Your task to perform on an android device: Show the shopping cart on bestbuy. Add alienware aurora to the cart on bestbuy, then select checkout. Image 0: 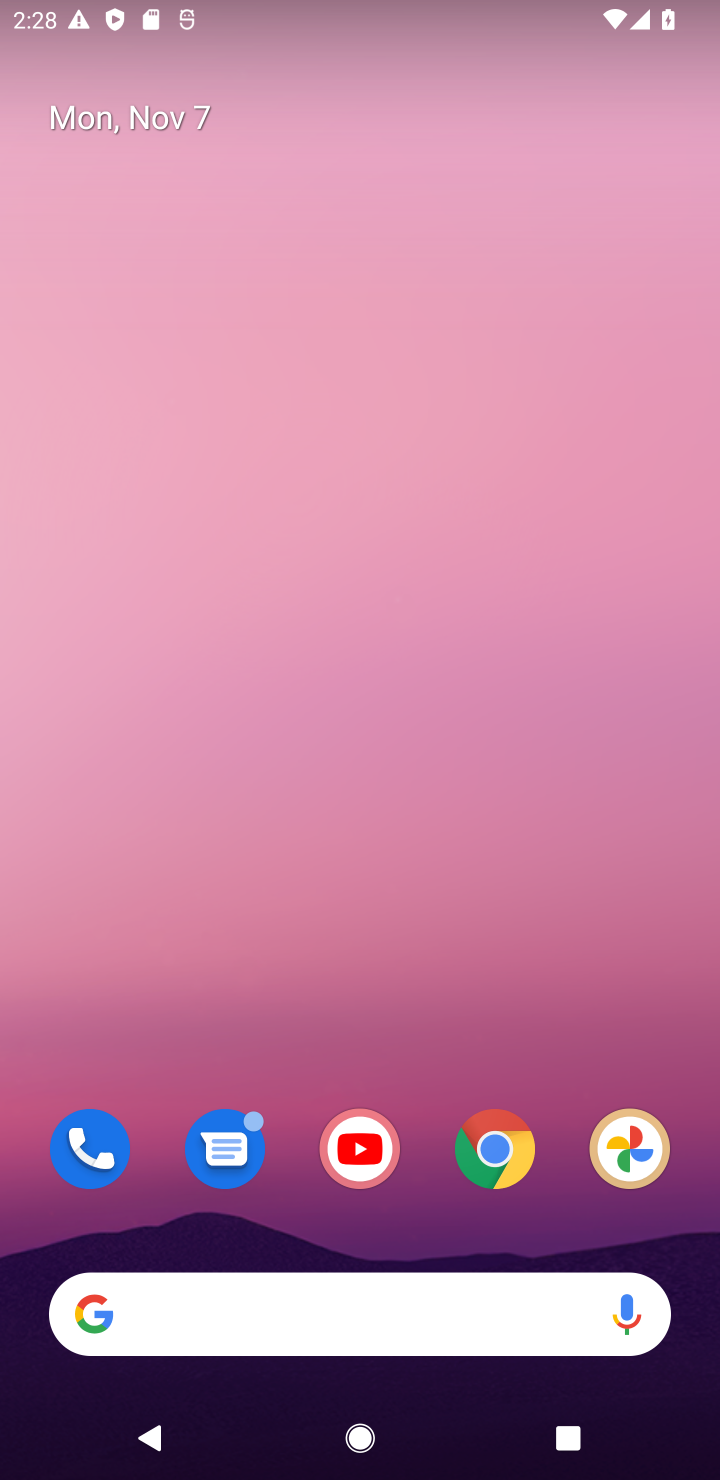
Step 0: click (506, 1148)
Your task to perform on an android device: Show the shopping cart on bestbuy. Add alienware aurora to the cart on bestbuy, then select checkout. Image 1: 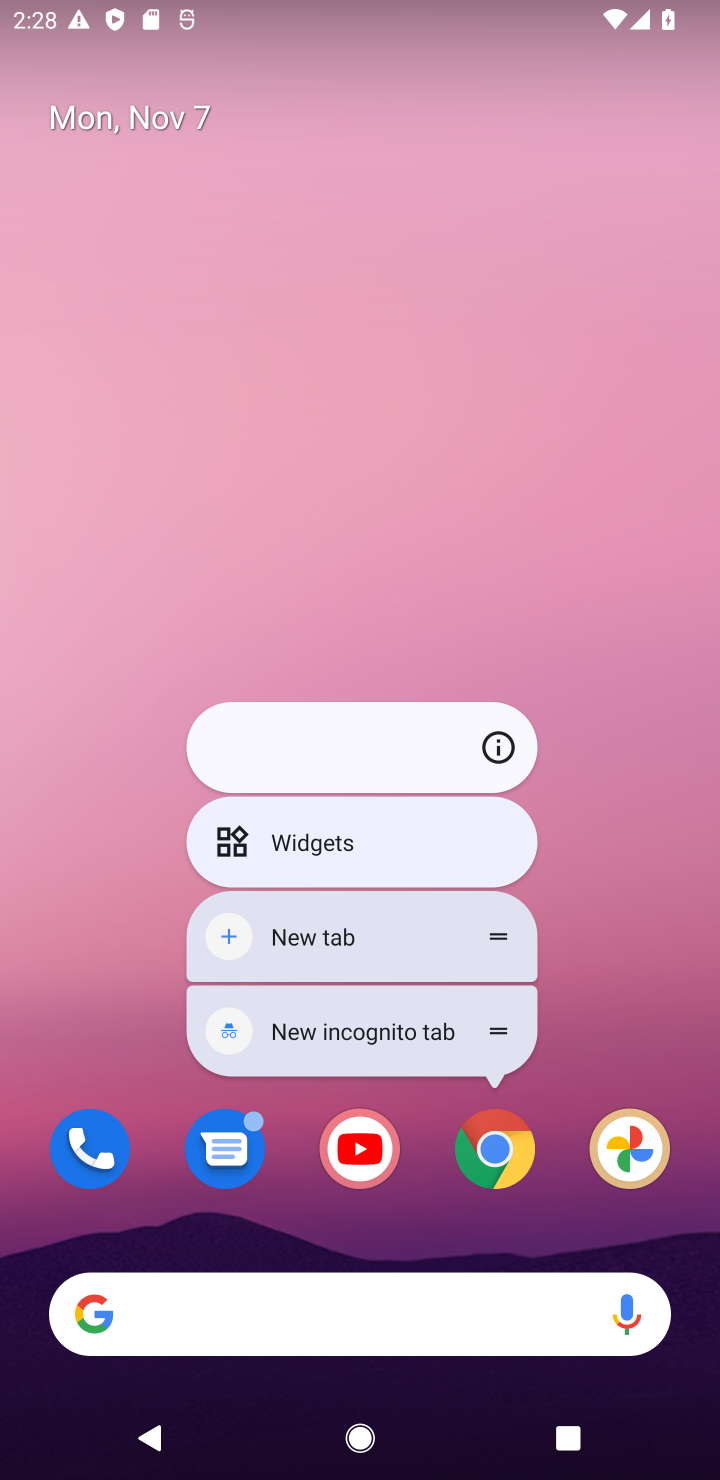
Step 1: click (506, 1148)
Your task to perform on an android device: Show the shopping cart on bestbuy. Add alienware aurora to the cart on bestbuy, then select checkout. Image 2: 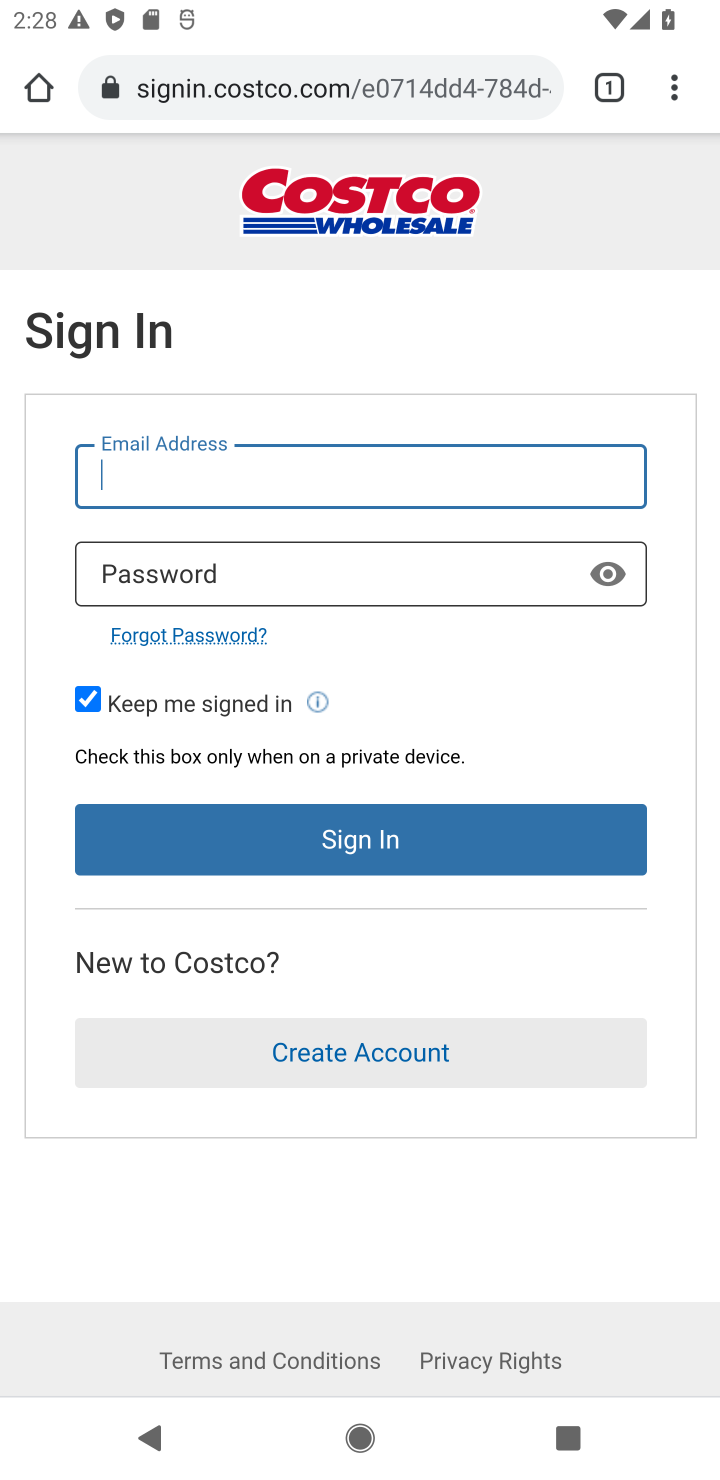
Step 2: click (319, 93)
Your task to perform on an android device: Show the shopping cart on bestbuy. Add alienware aurora to the cart on bestbuy, then select checkout. Image 3: 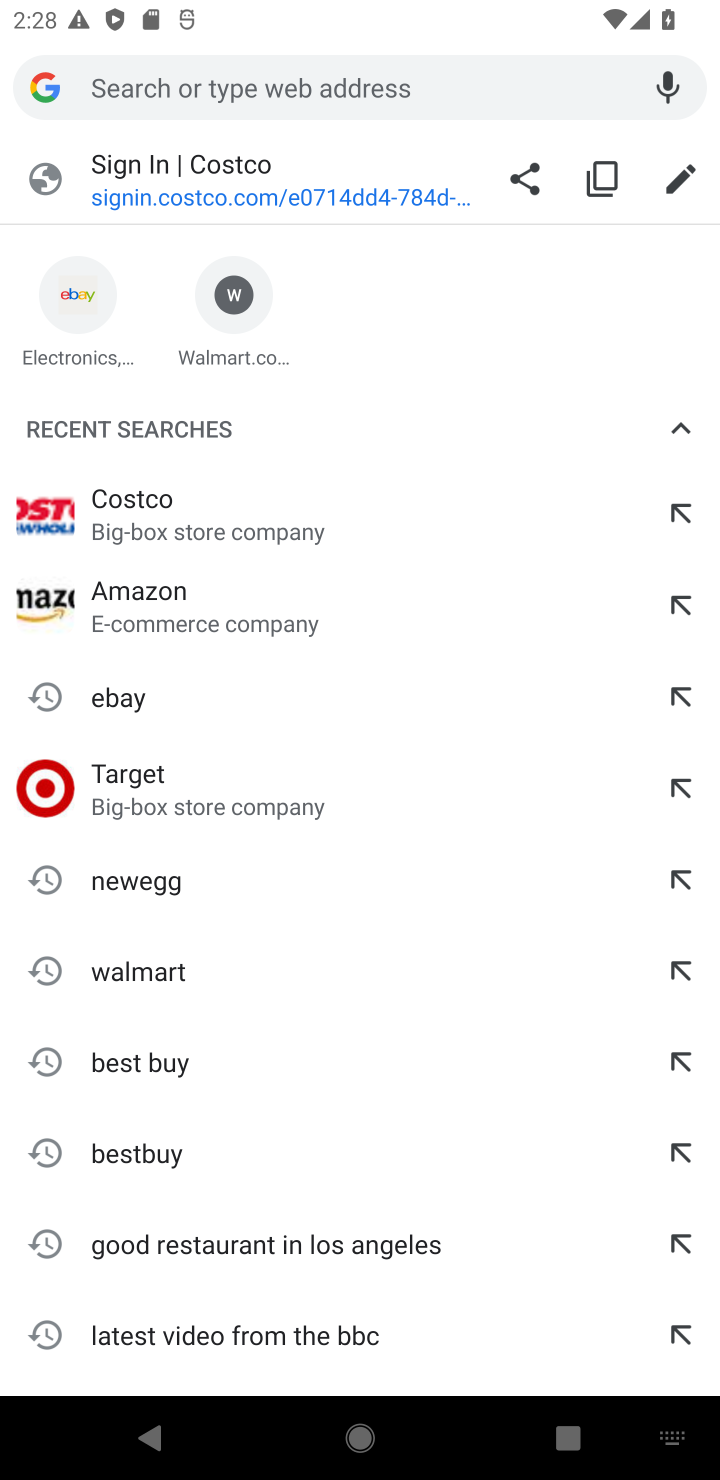
Step 3: type "bestbuy"
Your task to perform on an android device: Show the shopping cart on bestbuy. Add alienware aurora to the cart on bestbuy, then select checkout. Image 4: 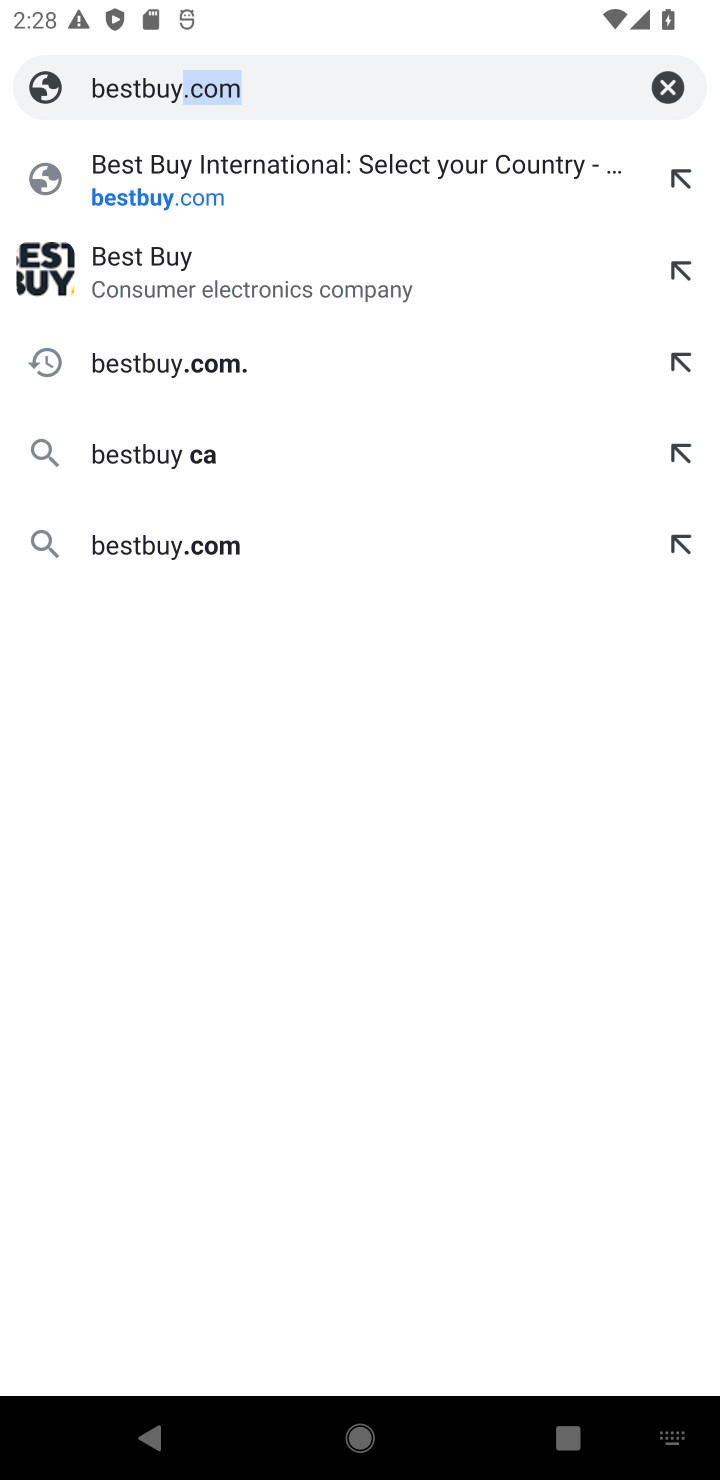
Step 4: click (150, 261)
Your task to perform on an android device: Show the shopping cart on bestbuy. Add alienware aurora to the cart on bestbuy, then select checkout. Image 5: 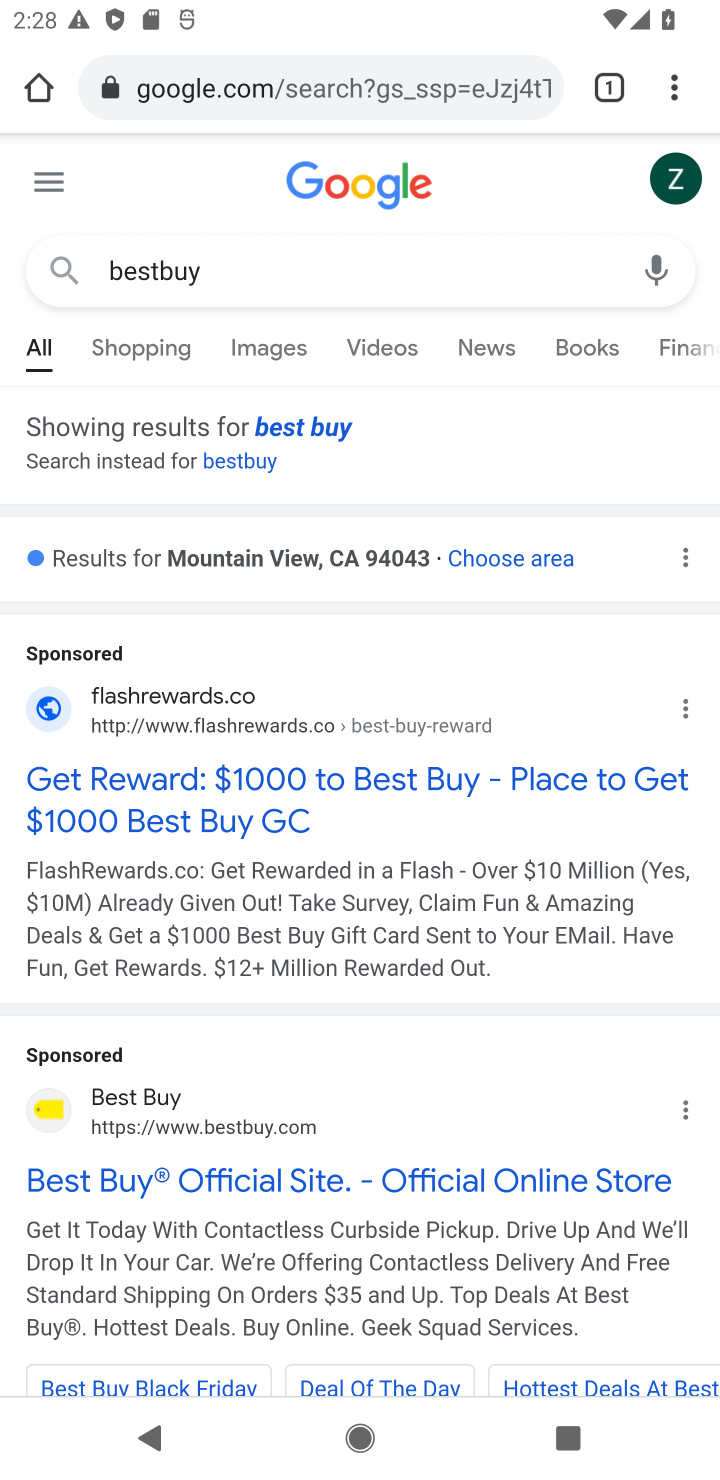
Step 5: drag from (171, 1034) to (234, 39)
Your task to perform on an android device: Show the shopping cart on bestbuy. Add alienware aurora to the cart on bestbuy, then select checkout. Image 6: 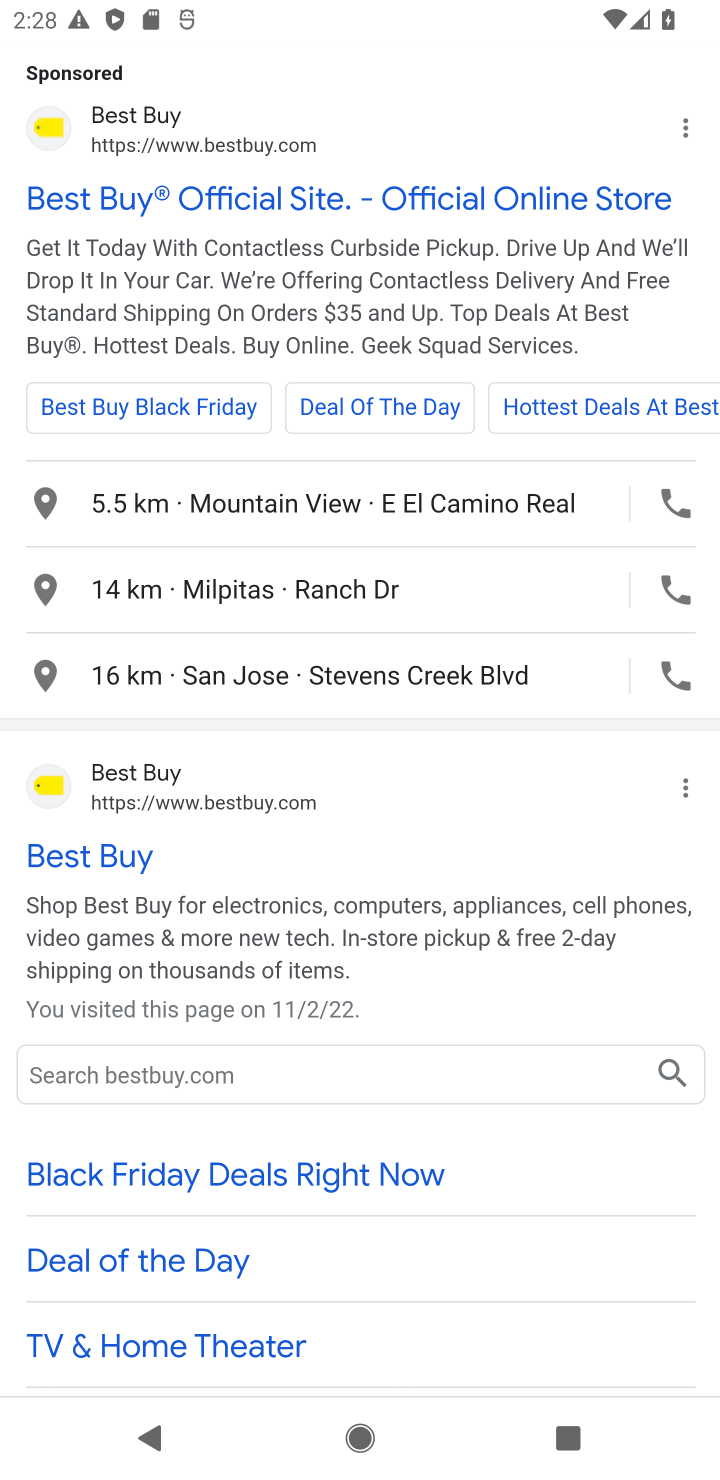
Step 6: click (66, 855)
Your task to perform on an android device: Show the shopping cart on bestbuy. Add alienware aurora to the cart on bestbuy, then select checkout. Image 7: 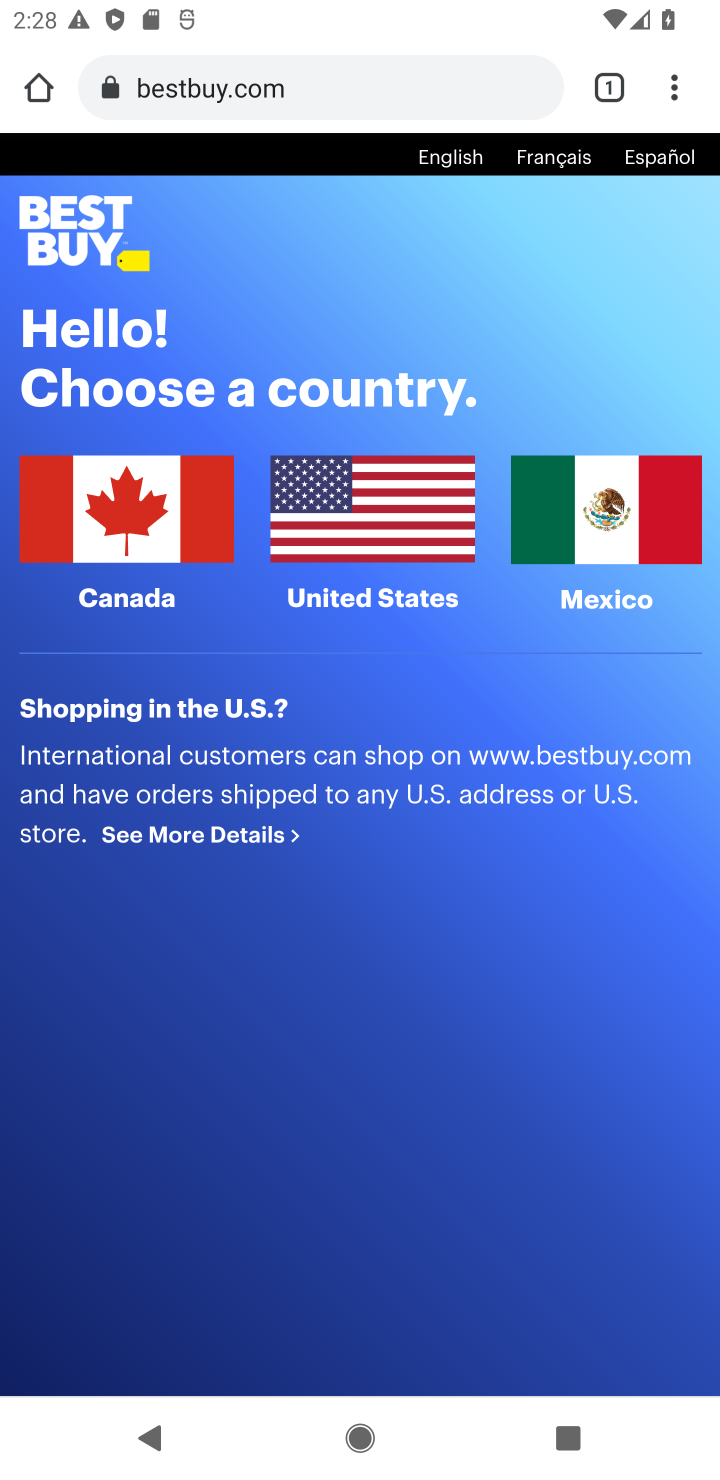
Step 7: click (188, 487)
Your task to perform on an android device: Show the shopping cart on bestbuy. Add alienware aurora to the cart on bestbuy, then select checkout. Image 8: 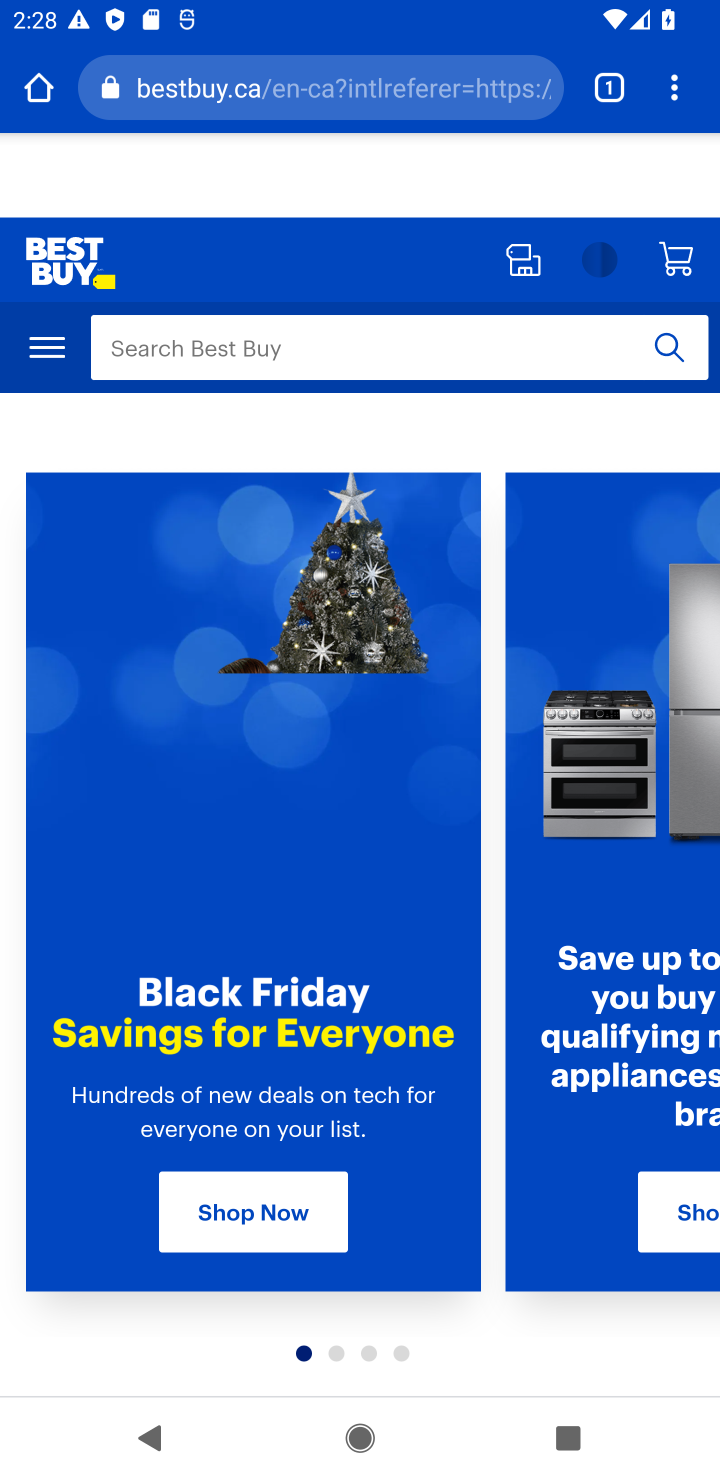
Step 8: click (222, 351)
Your task to perform on an android device: Show the shopping cart on bestbuy. Add alienware aurora to the cart on bestbuy, then select checkout. Image 9: 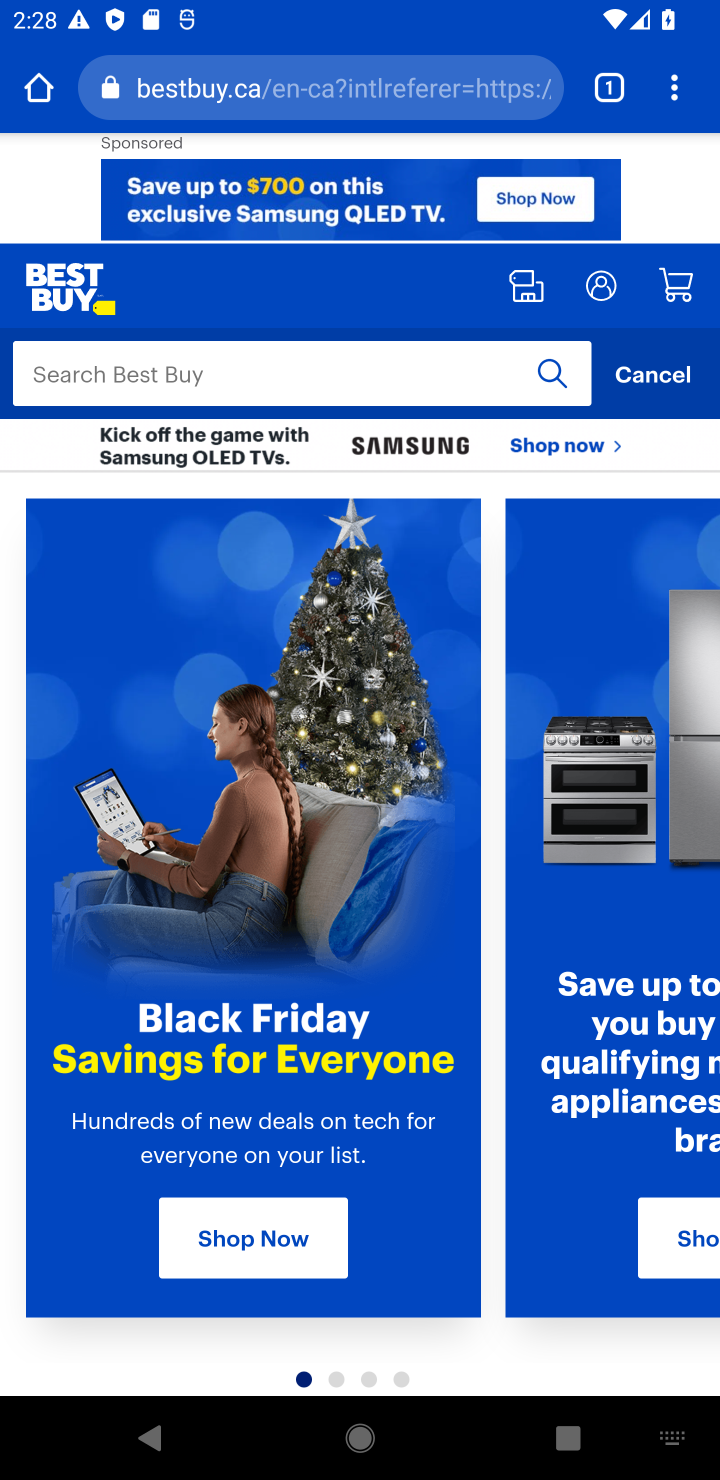
Step 9: type "alienware aurora"
Your task to perform on an android device: Show the shopping cart on bestbuy. Add alienware aurora to the cart on bestbuy, then select checkout. Image 10: 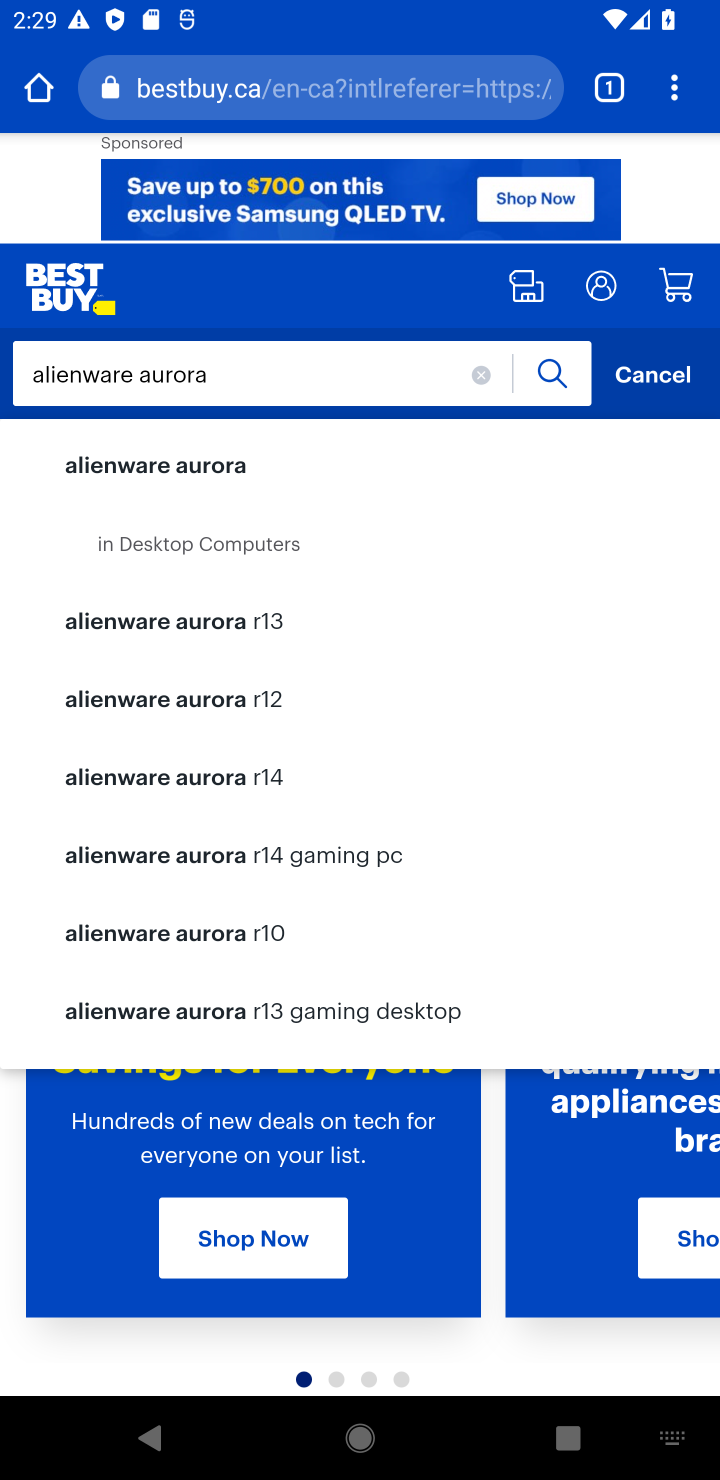
Step 10: click (131, 451)
Your task to perform on an android device: Show the shopping cart on bestbuy. Add alienware aurora to the cart on bestbuy, then select checkout. Image 11: 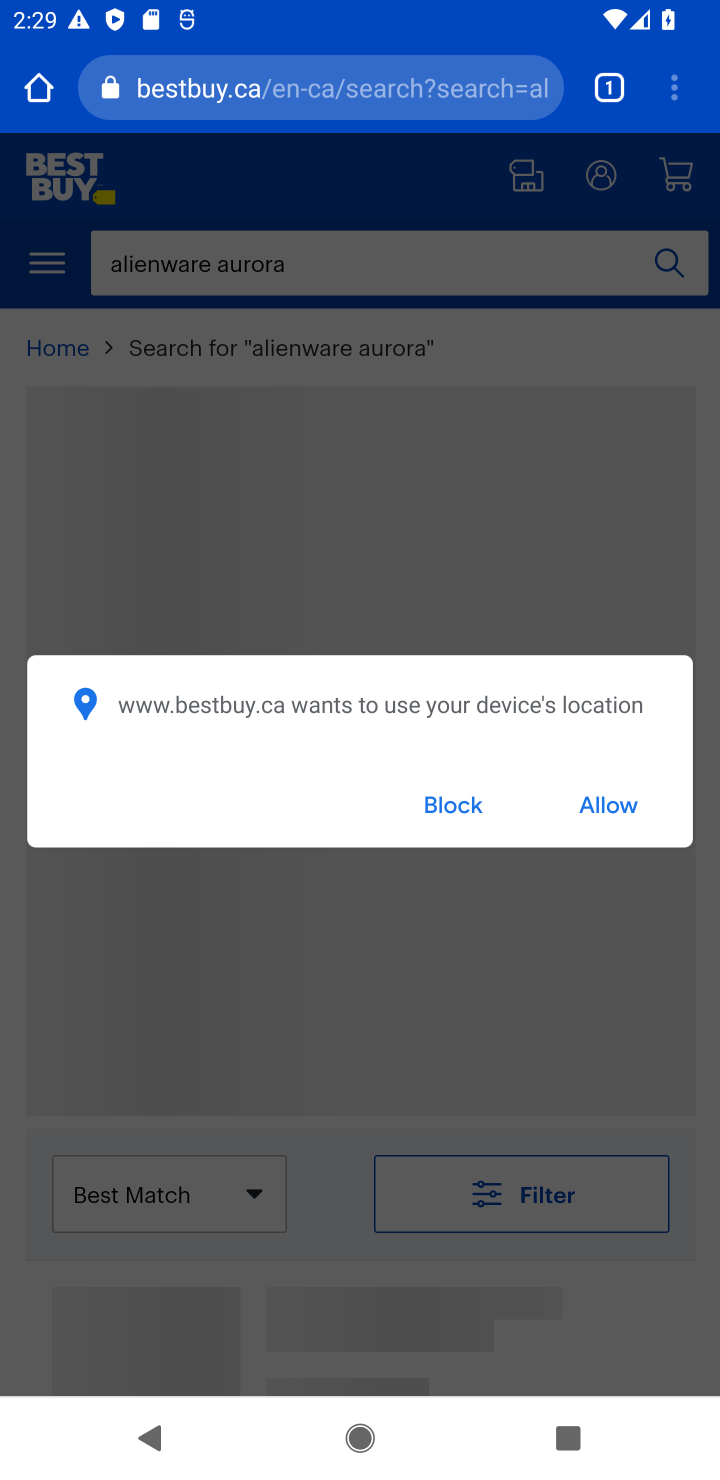
Step 11: click (601, 801)
Your task to perform on an android device: Show the shopping cart on bestbuy. Add alienware aurora to the cart on bestbuy, then select checkout. Image 12: 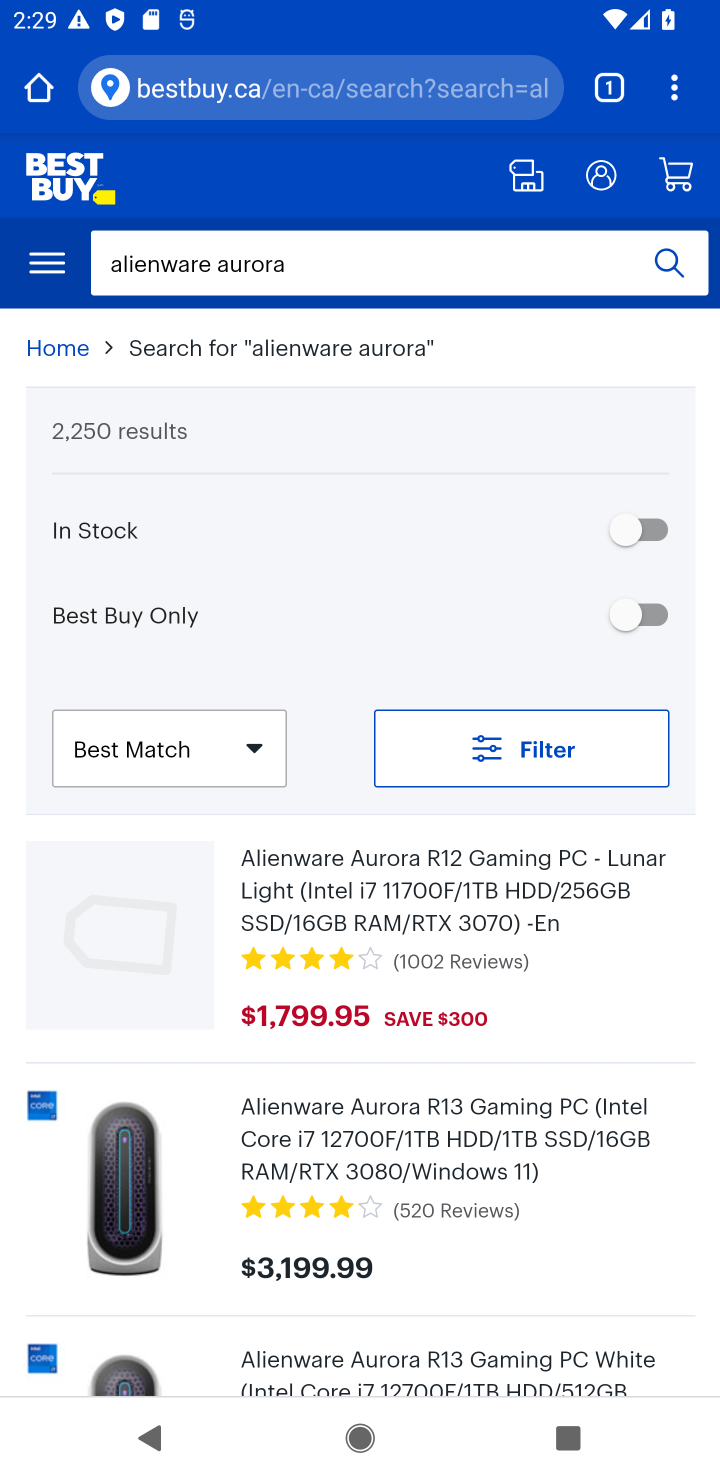
Step 12: drag from (491, 1199) to (451, 416)
Your task to perform on an android device: Show the shopping cart on bestbuy. Add alienware aurora to the cart on bestbuy, then select checkout. Image 13: 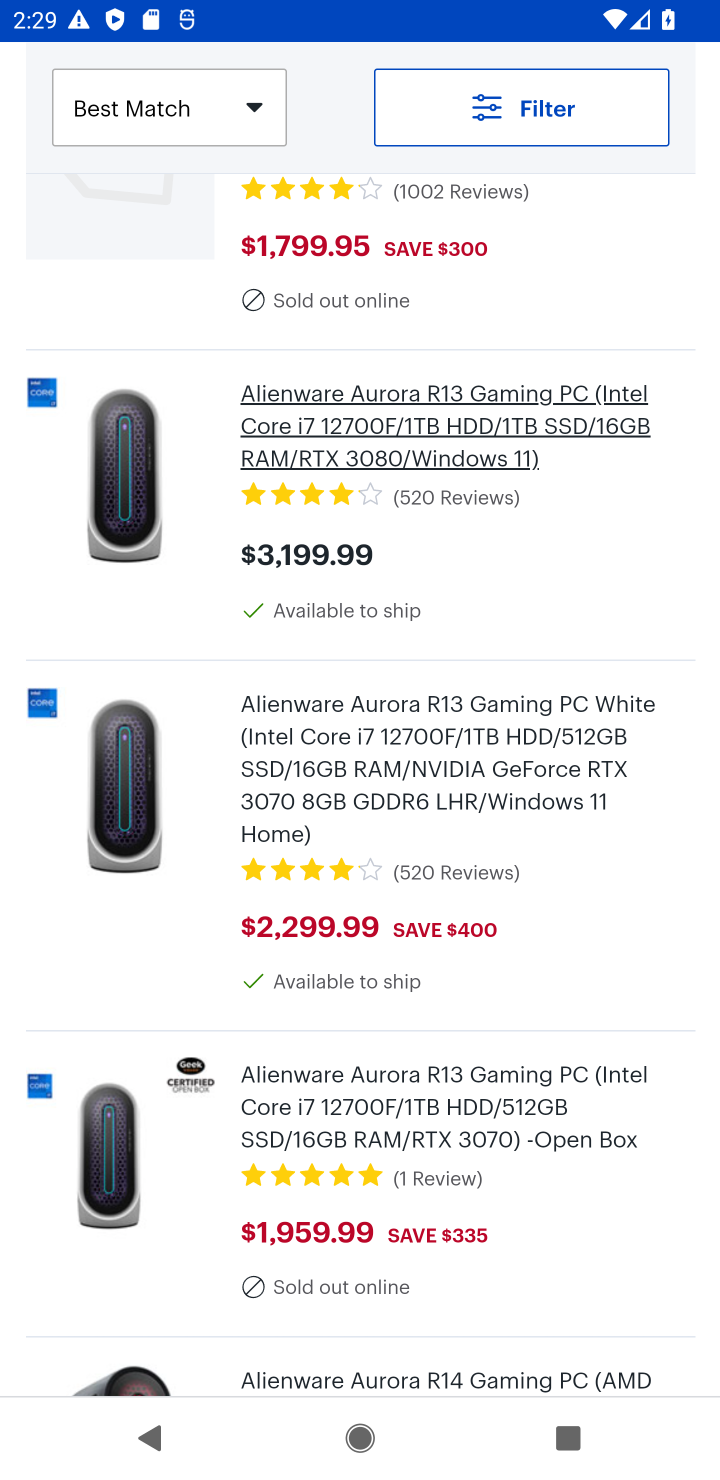
Step 13: click (381, 592)
Your task to perform on an android device: Show the shopping cart on bestbuy. Add alienware aurora to the cart on bestbuy, then select checkout. Image 14: 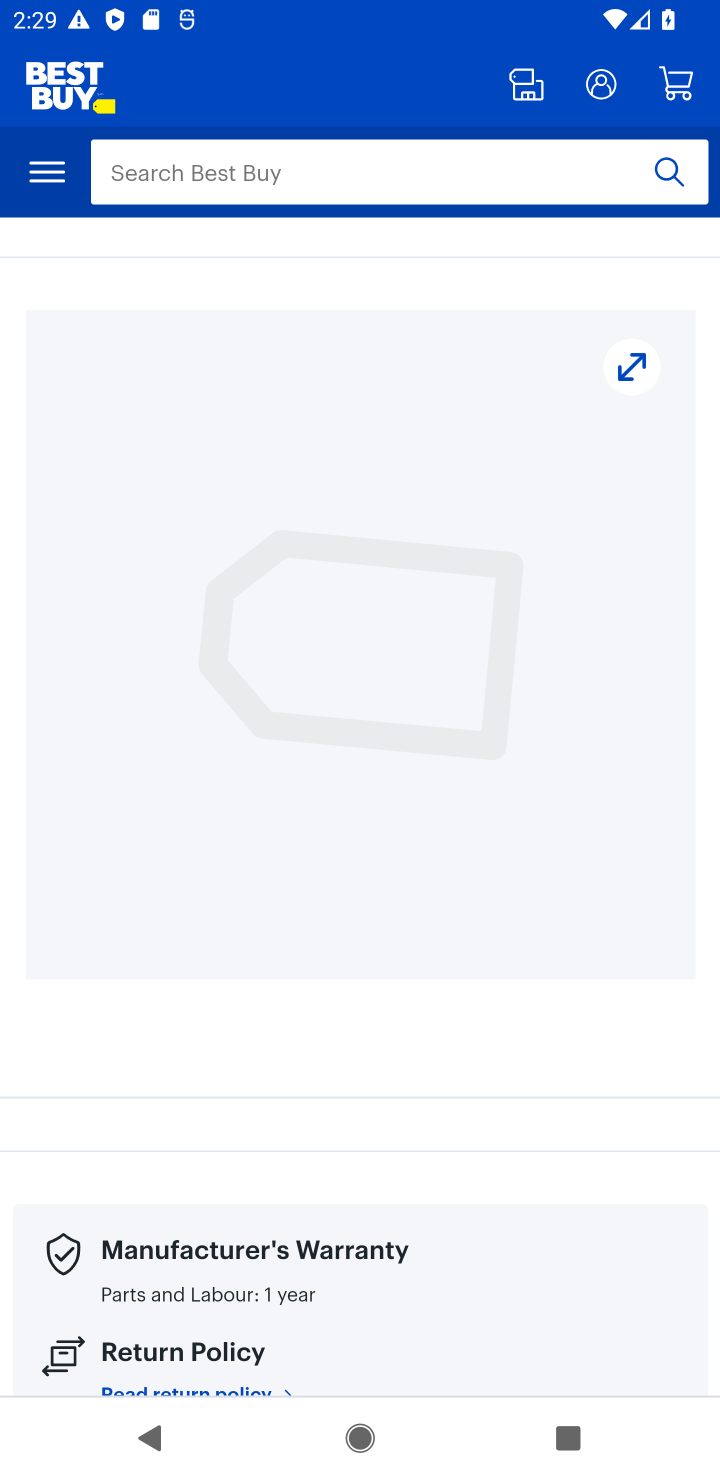
Step 14: press back button
Your task to perform on an android device: Show the shopping cart on bestbuy. Add alienware aurora to the cart on bestbuy, then select checkout. Image 15: 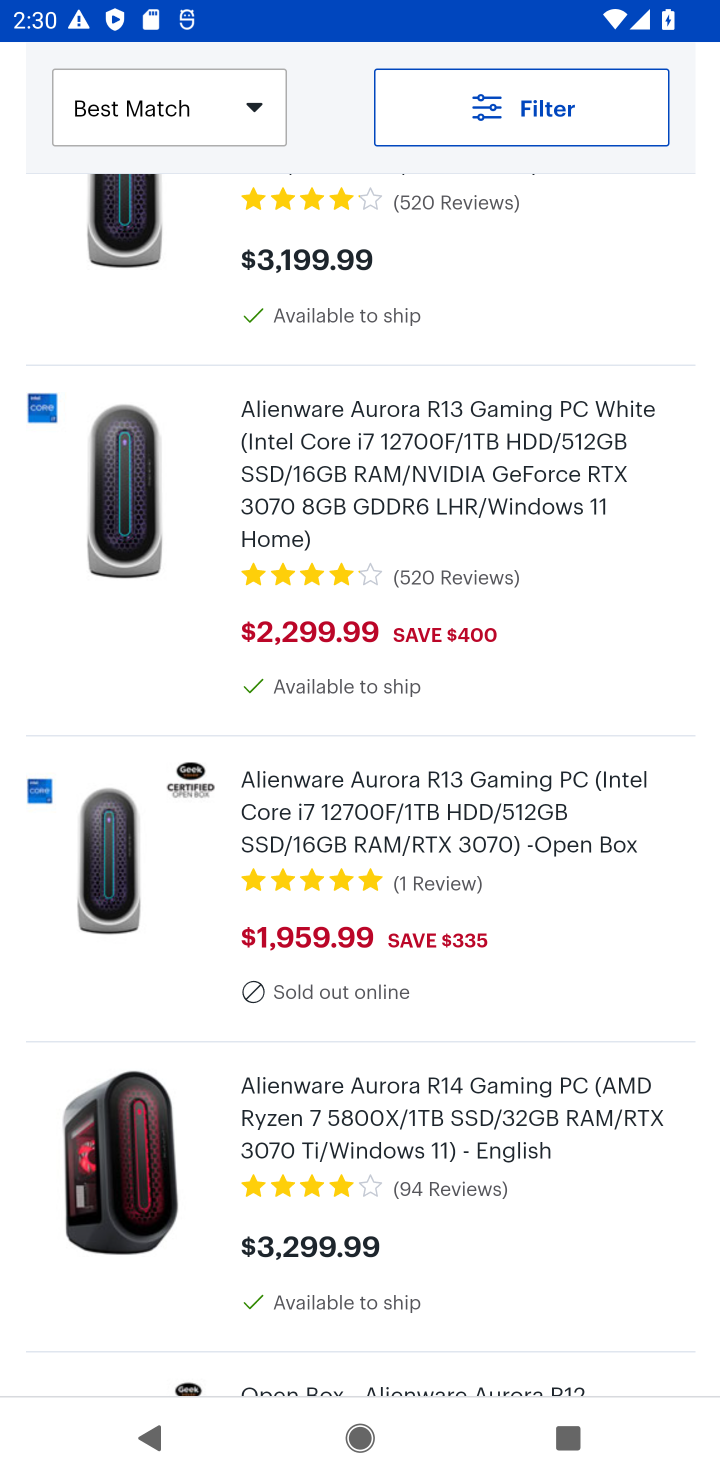
Step 15: click (391, 778)
Your task to perform on an android device: Show the shopping cart on bestbuy. Add alienware aurora to the cart on bestbuy, then select checkout. Image 16: 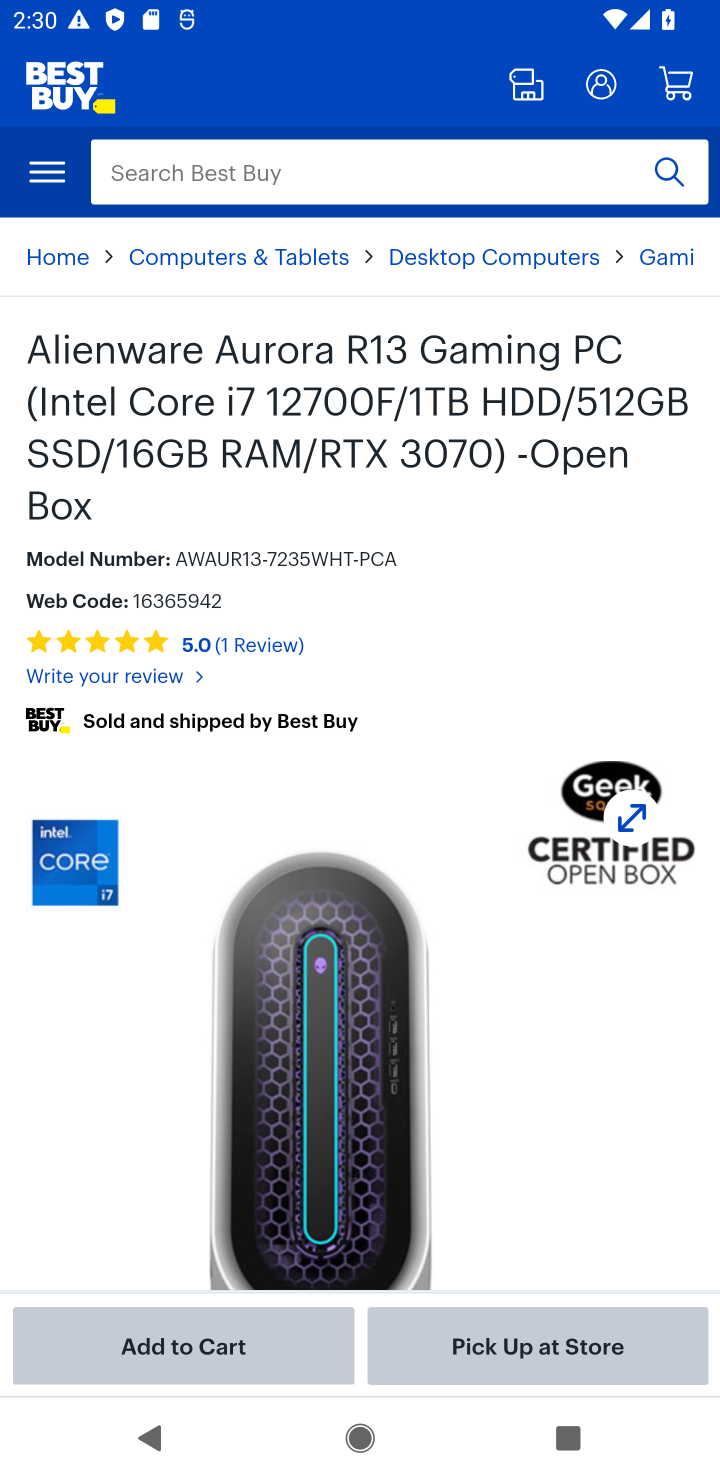
Step 16: drag from (444, 1105) to (437, 239)
Your task to perform on an android device: Show the shopping cart on bestbuy. Add alienware aurora to the cart on bestbuy, then select checkout. Image 17: 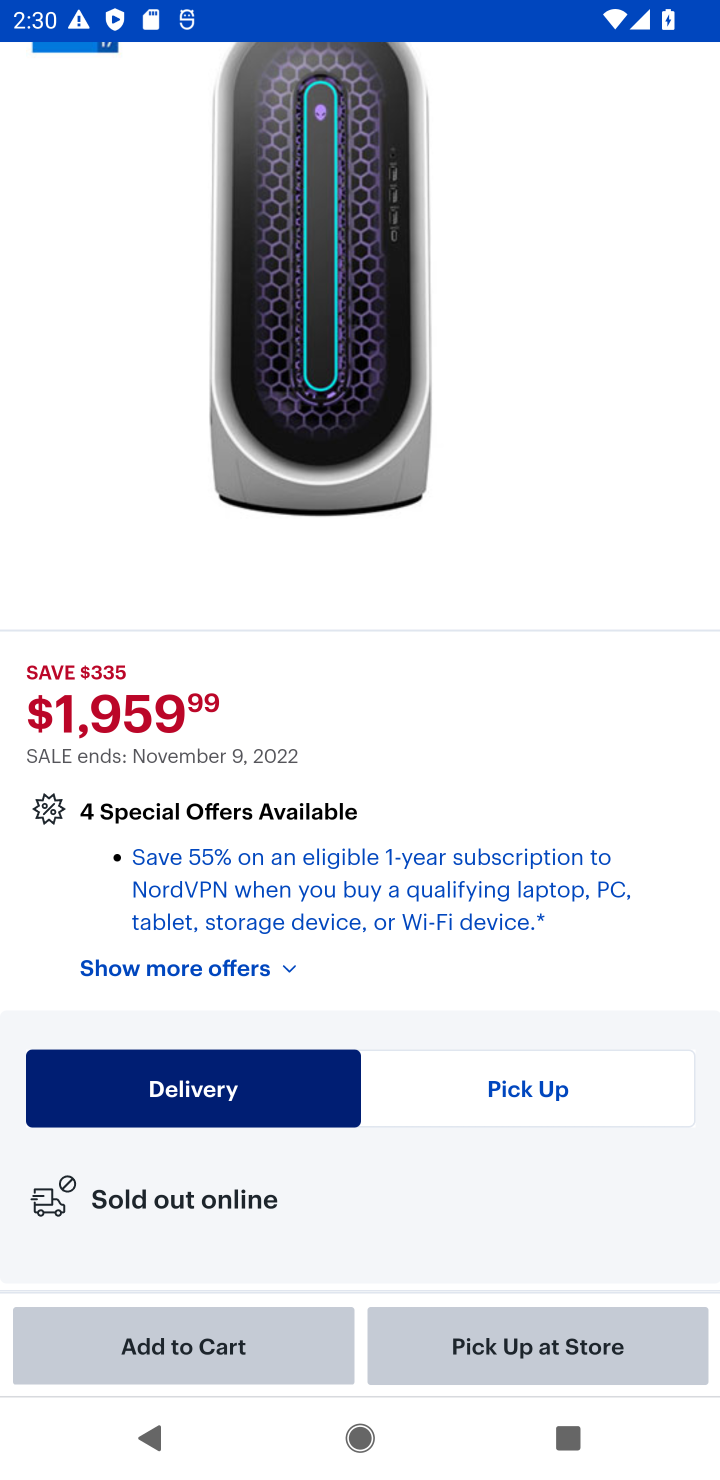
Step 17: drag from (379, 582) to (364, 272)
Your task to perform on an android device: Show the shopping cart on bestbuy. Add alienware aurora to the cart on bestbuy, then select checkout. Image 18: 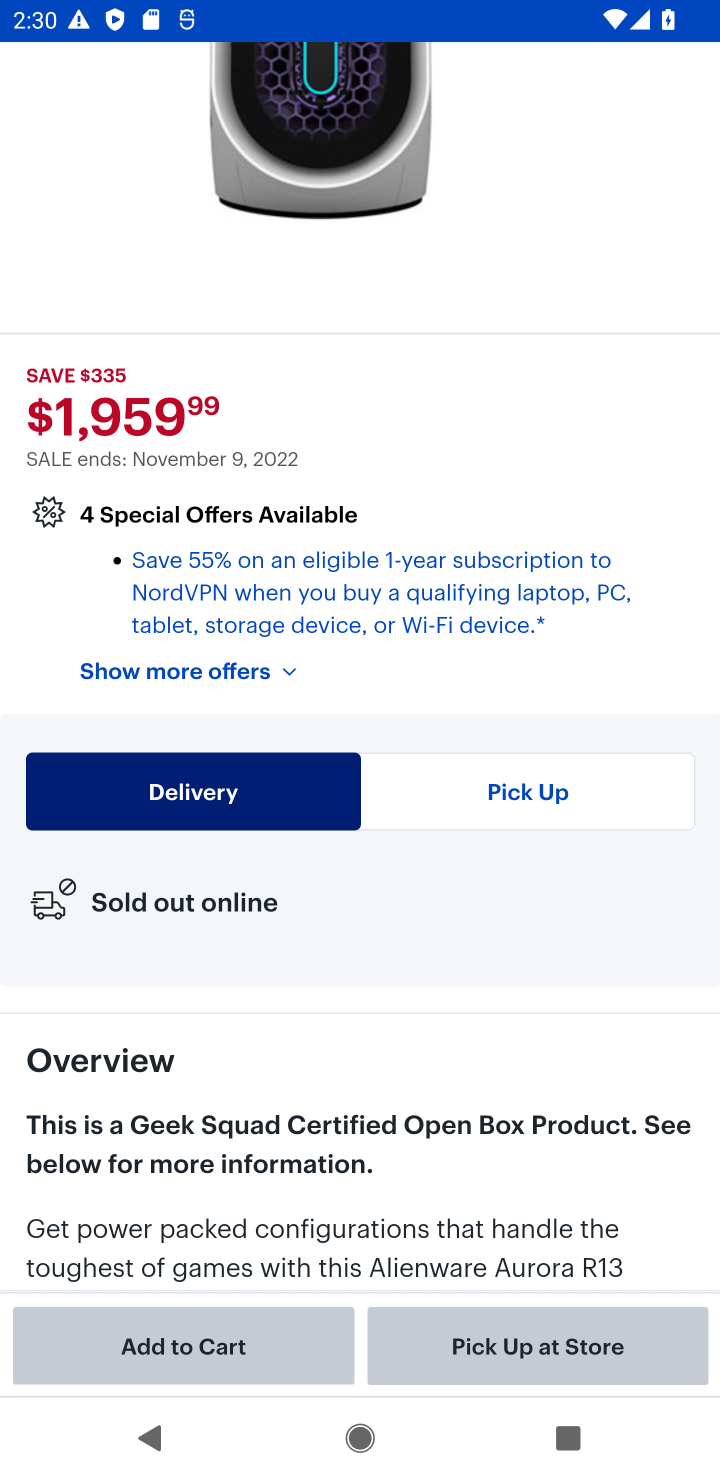
Step 18: drag from (287, 1111) to (315, 167)
Your task to perform on an android device: Show the shopping cart on bestbuy. Add alienware aurora to the cart on bestbuy, then select checkout. Image 19: 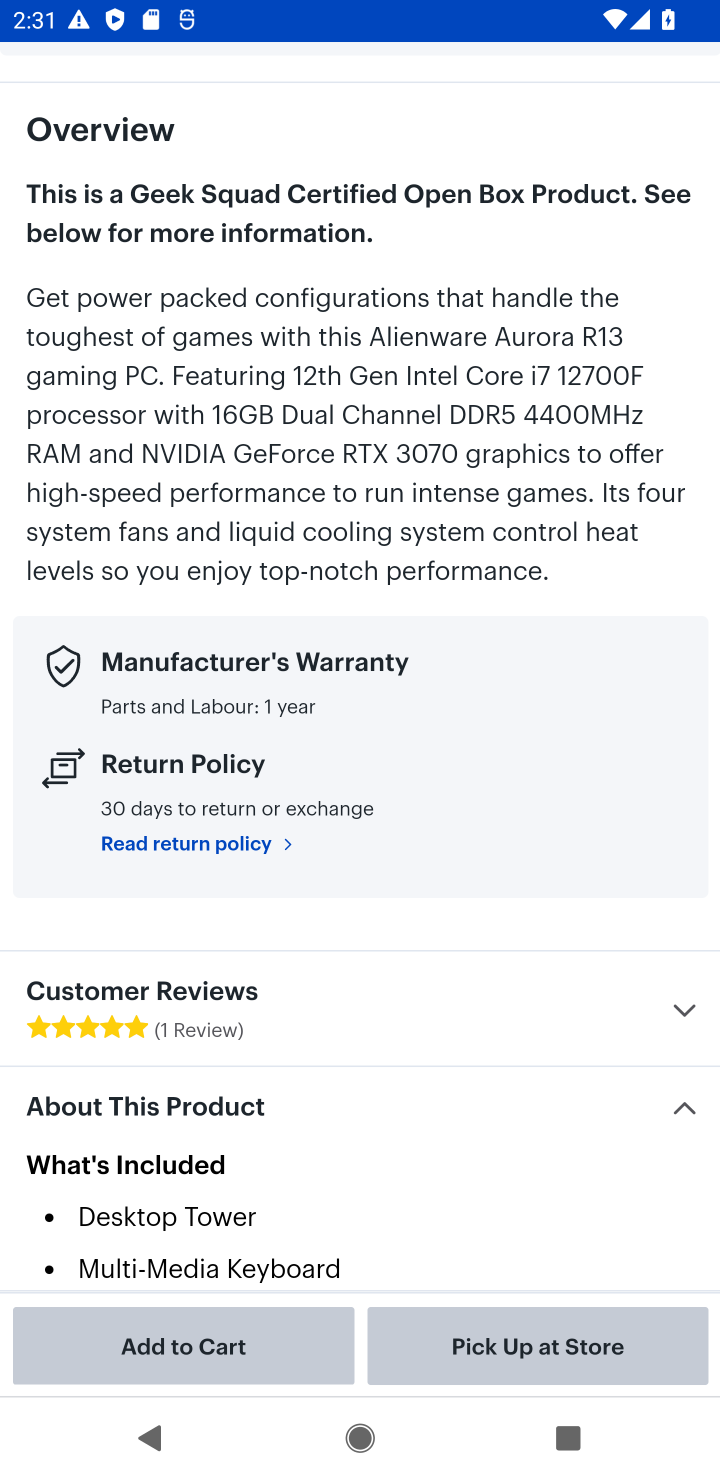
Step 19: click (203, 1343)
Your task to perform on an android device: Show the shopping cart on bestbuy. Add alienware aurora to the cart on bestbuy, then select checkout. Image 20: 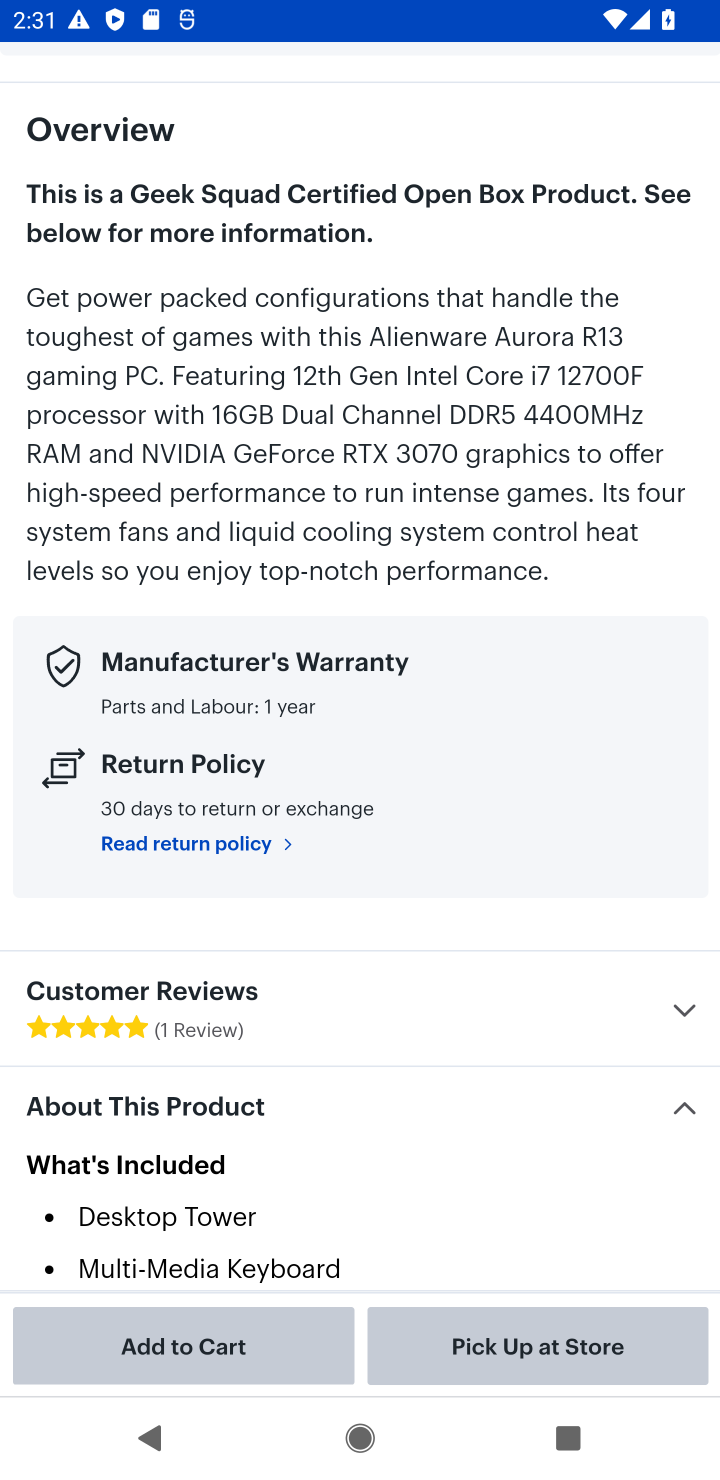
Step 20: click (205, 1341)
Your task to perform on an android device: Show the shopping cart on bestbuy. Add alienware aurora to the cart on bestbuy, then select checkout. Image 21: 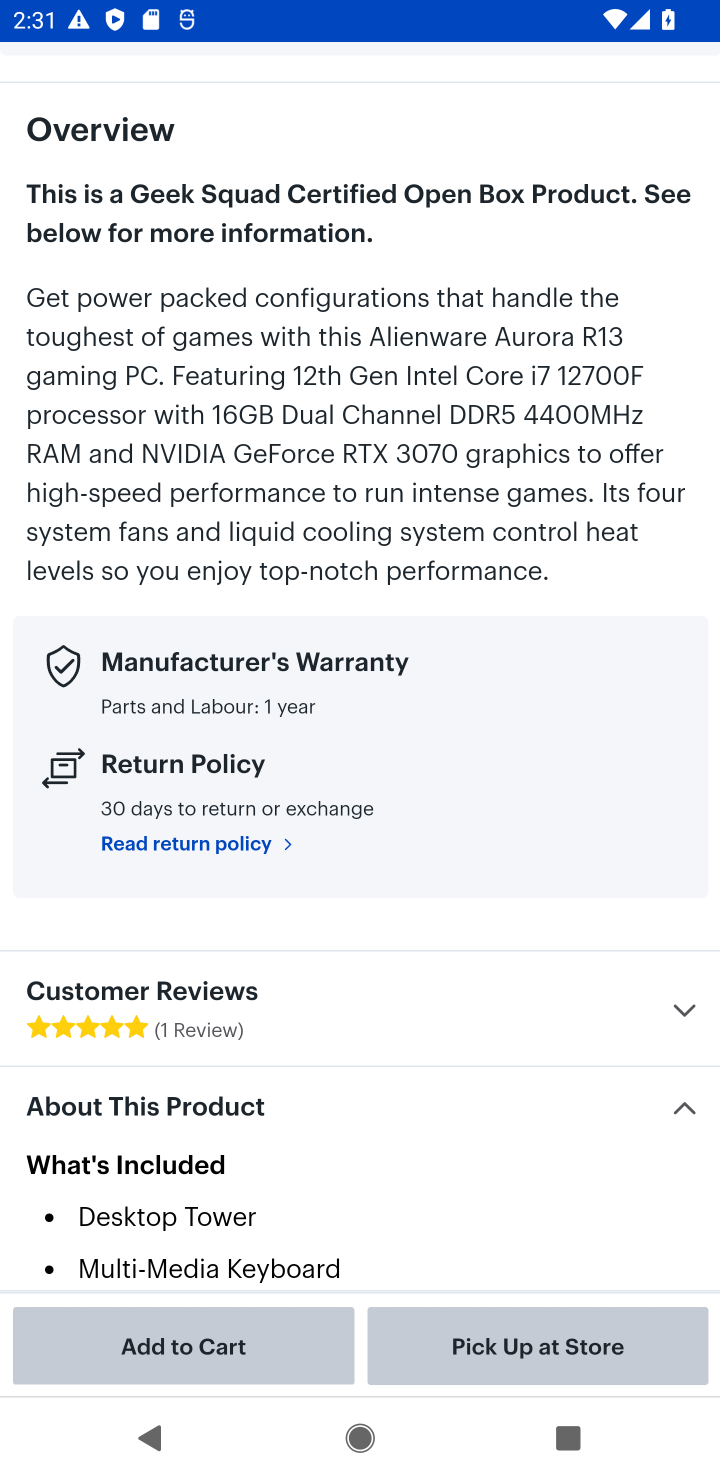
Step 21: click (203, 1333)
Your task to perform on an android device: Show the shopping cart on bestbuy. Add alienware aurora to the cart on bestbuy, then select checkout. Image 22: 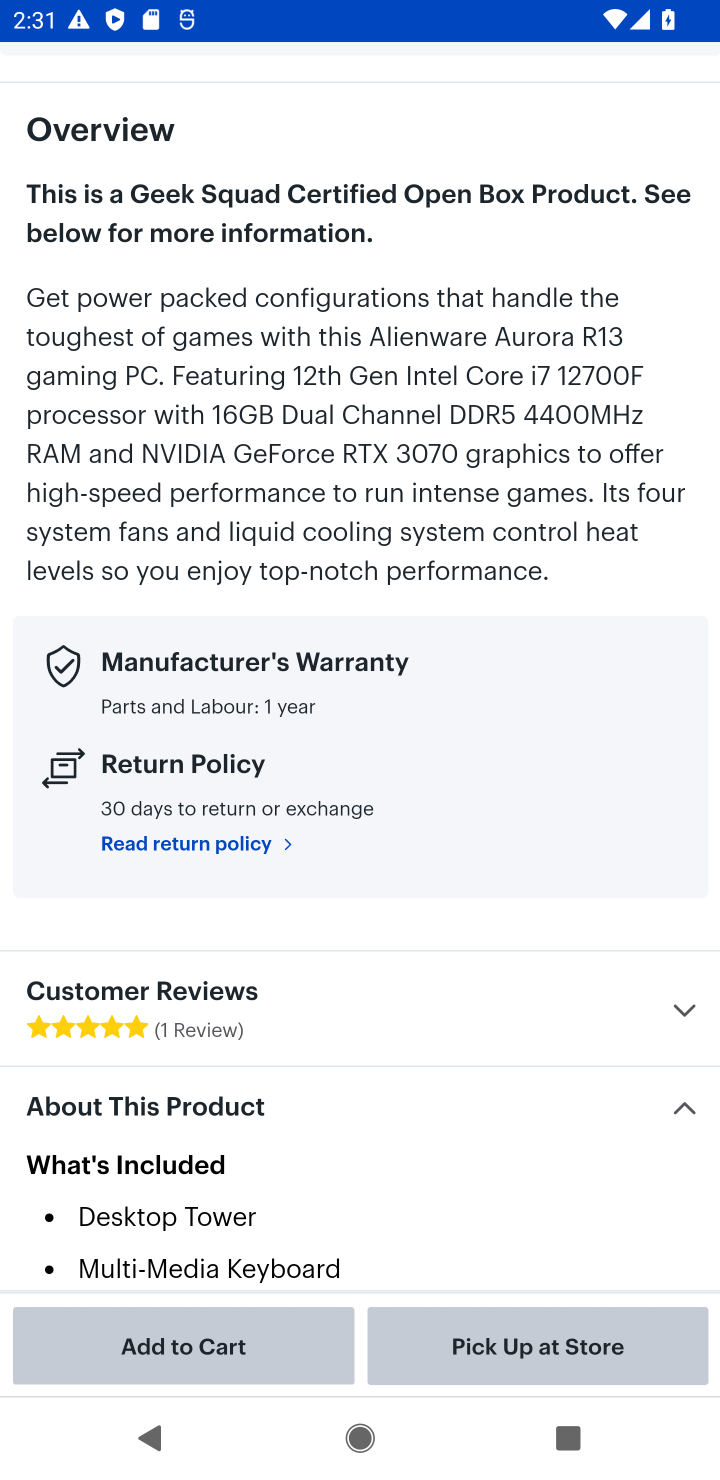
Step 22: click (198, 1345)
Your task to perform on an android device: Show the shopping cart on bestbuy. Add alienware aurora to the cart on bestbuy, then select checkout. Image 23: 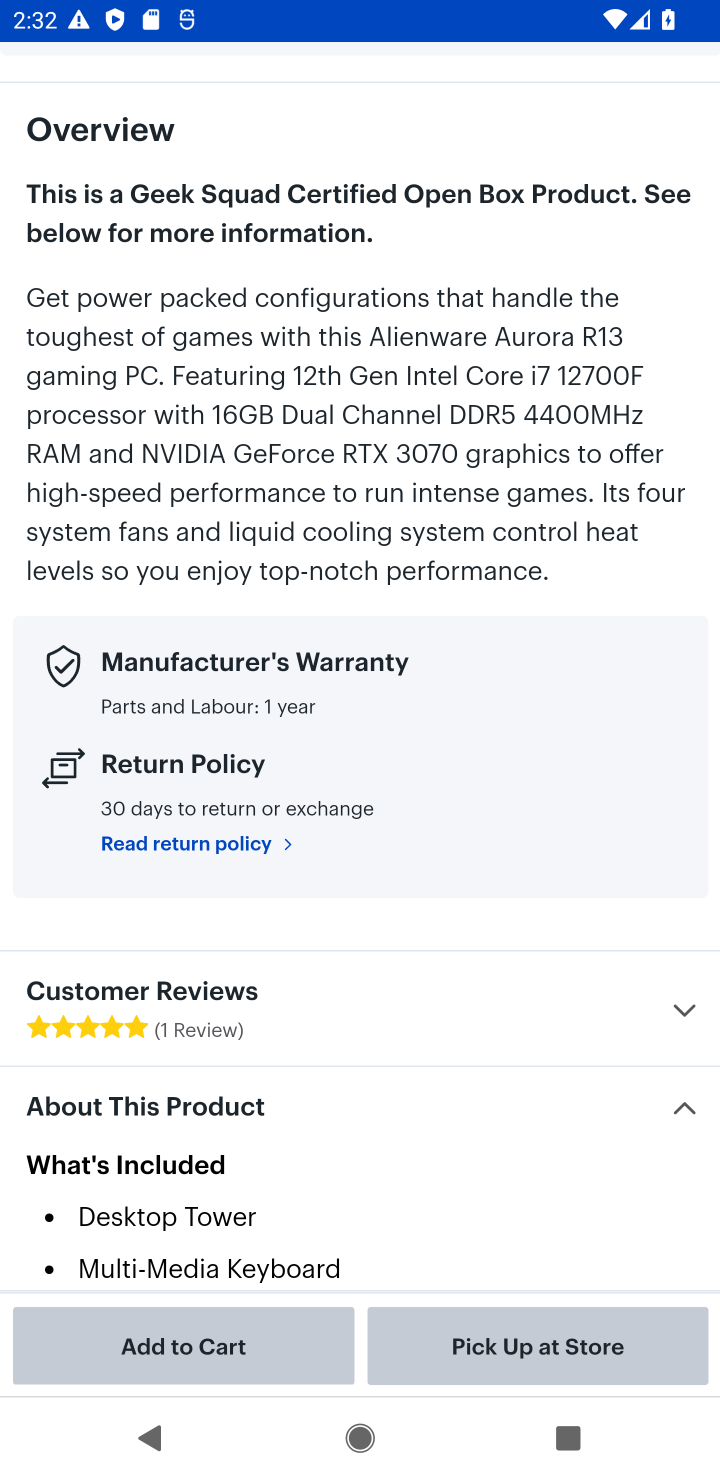
Step 23: click (187, 1351)
Your task to perform on an android device: Show the shopping cart on bestbuy. Add alienware aurora to the cart on bestbuy, then select checkout. Image 24: 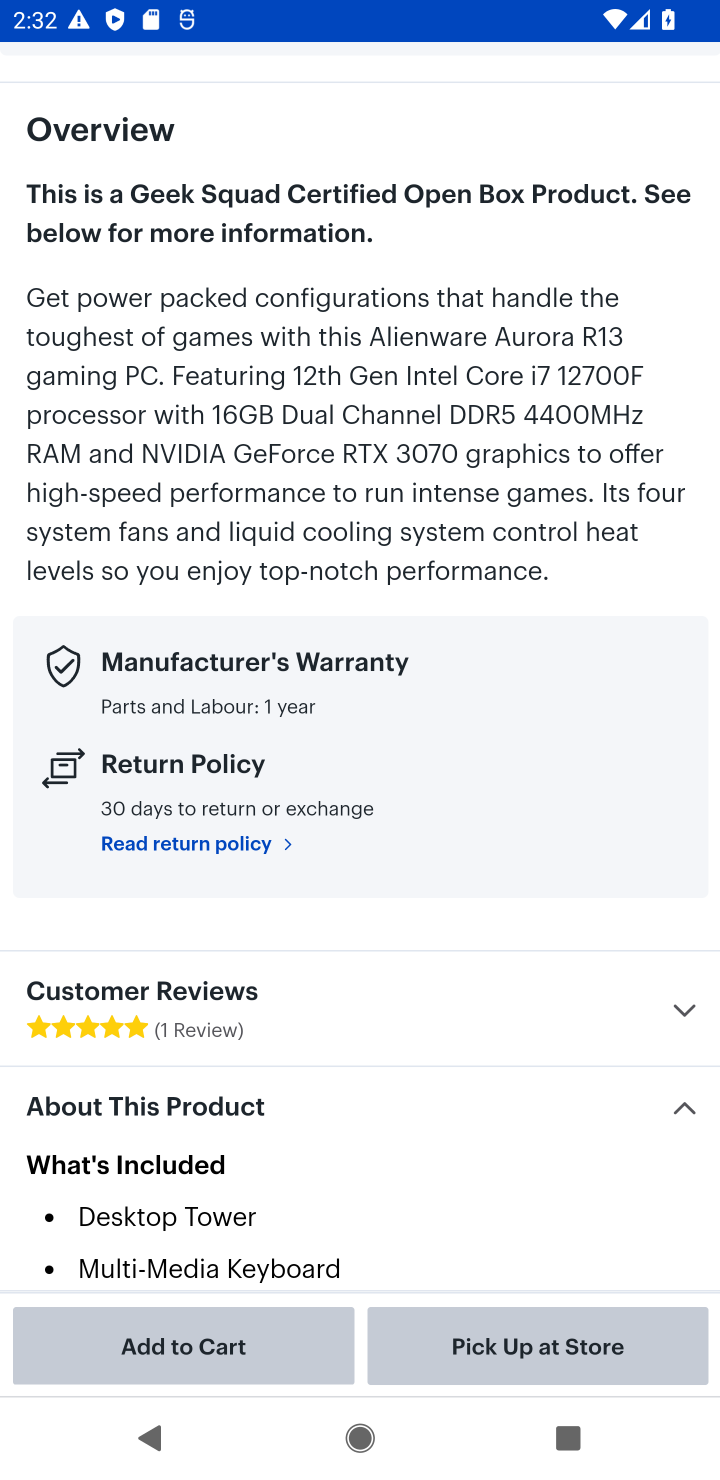
Step 24: press back button
Your task to perform on an android device: Show the shopping cart on bestbuy. Add alienware aurora to the cart on bestbuy, then select checkout. Image 25: 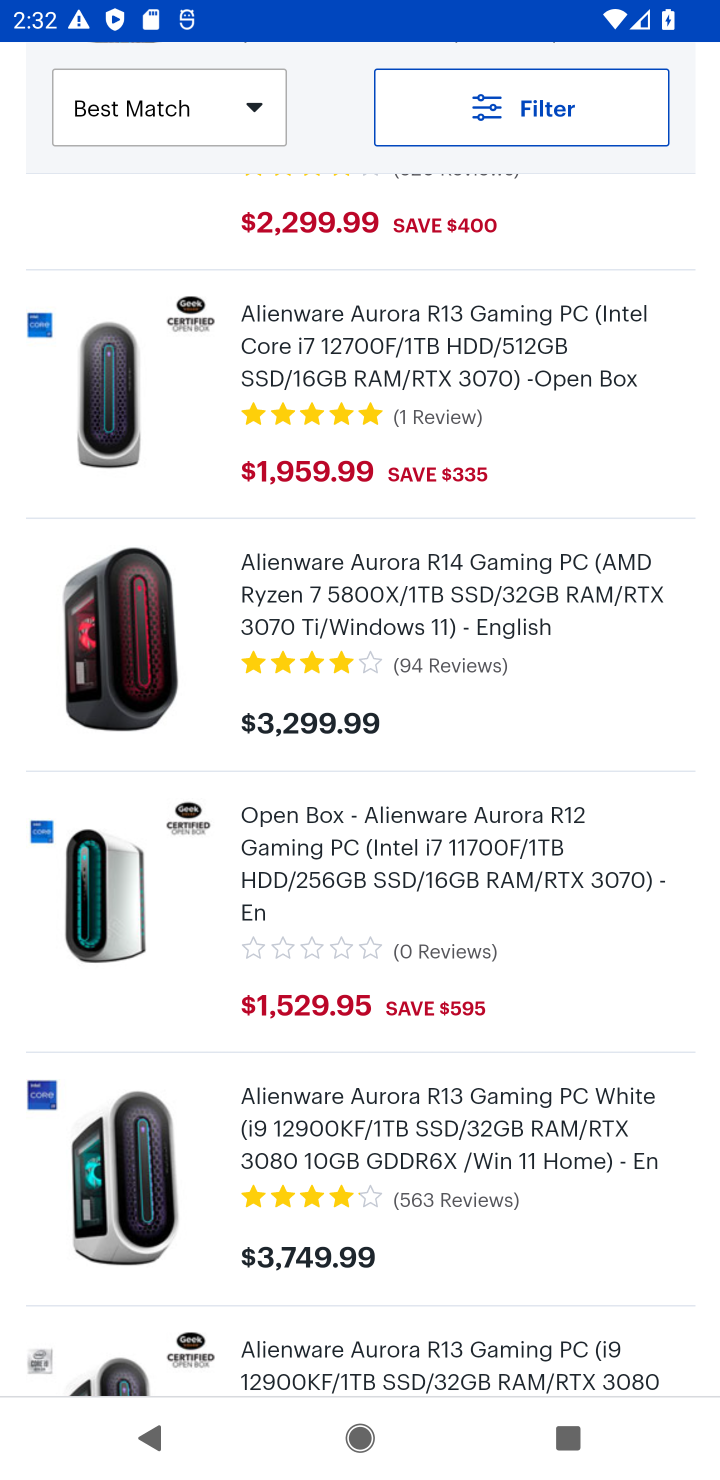
Step 25: click (395, 1095)
Your task to perform on an android device: Show the shopping cart on bestbuy. Add alienware aurora to the cart on bestbuy, then select checkout. Image 26: 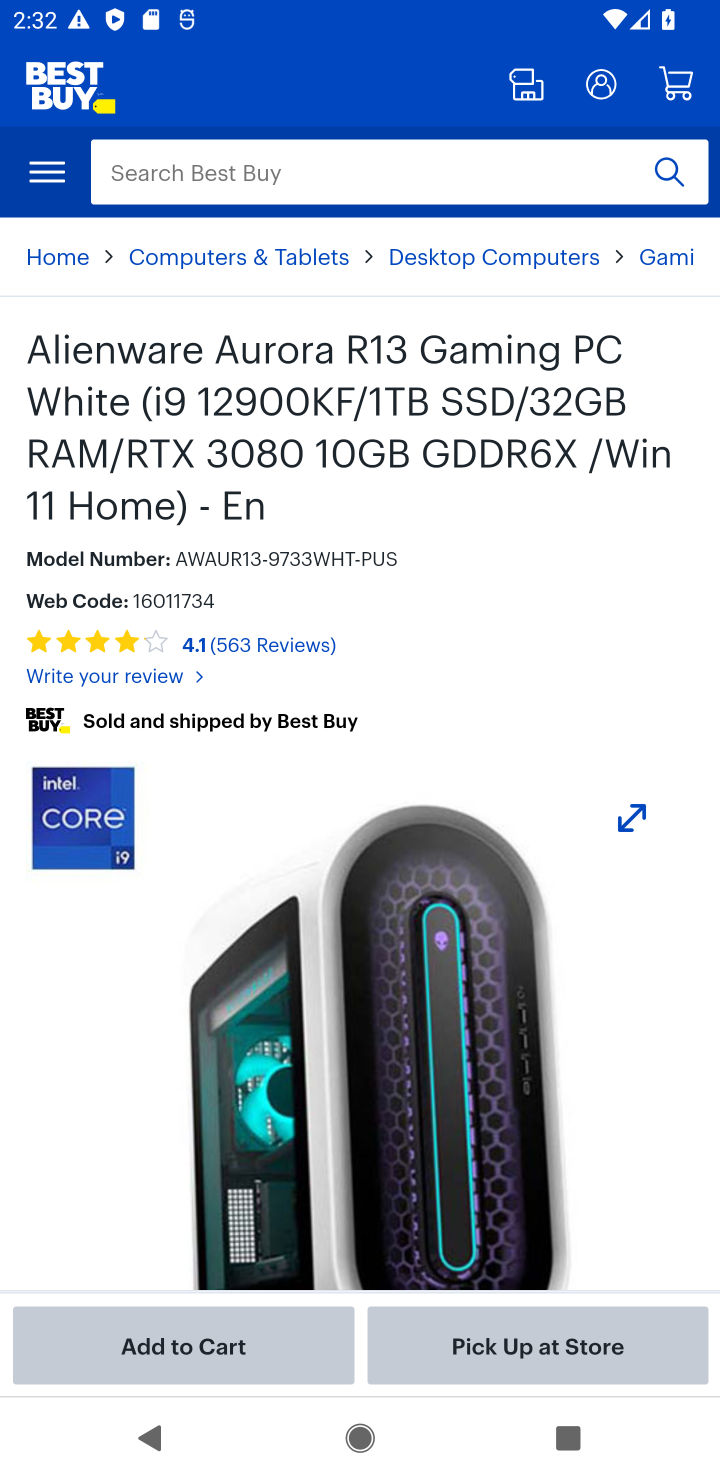
Step 26: drag from (168, 1144) to (263, 873)
Your task to perform on an android device: Show the shopping cart on bestbuy. Add alienware aurora to the cart on bestbuy, then select checkout. Image 27: 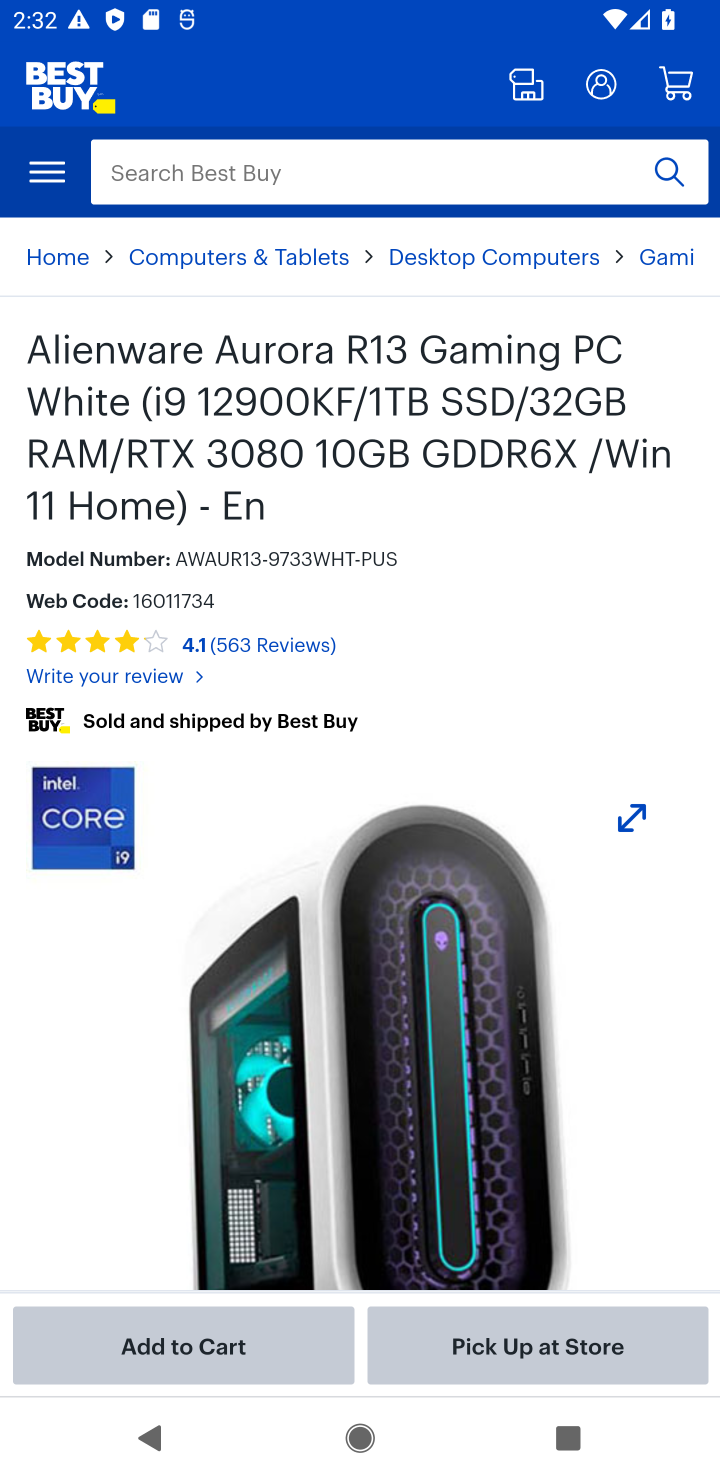
Step 27: click (169, 1353)
Your task to perform on an android device: Show the shopping cart on bestbuy. Add alienware aurora to the cart on bestbuy, then select checkout. Image 28: 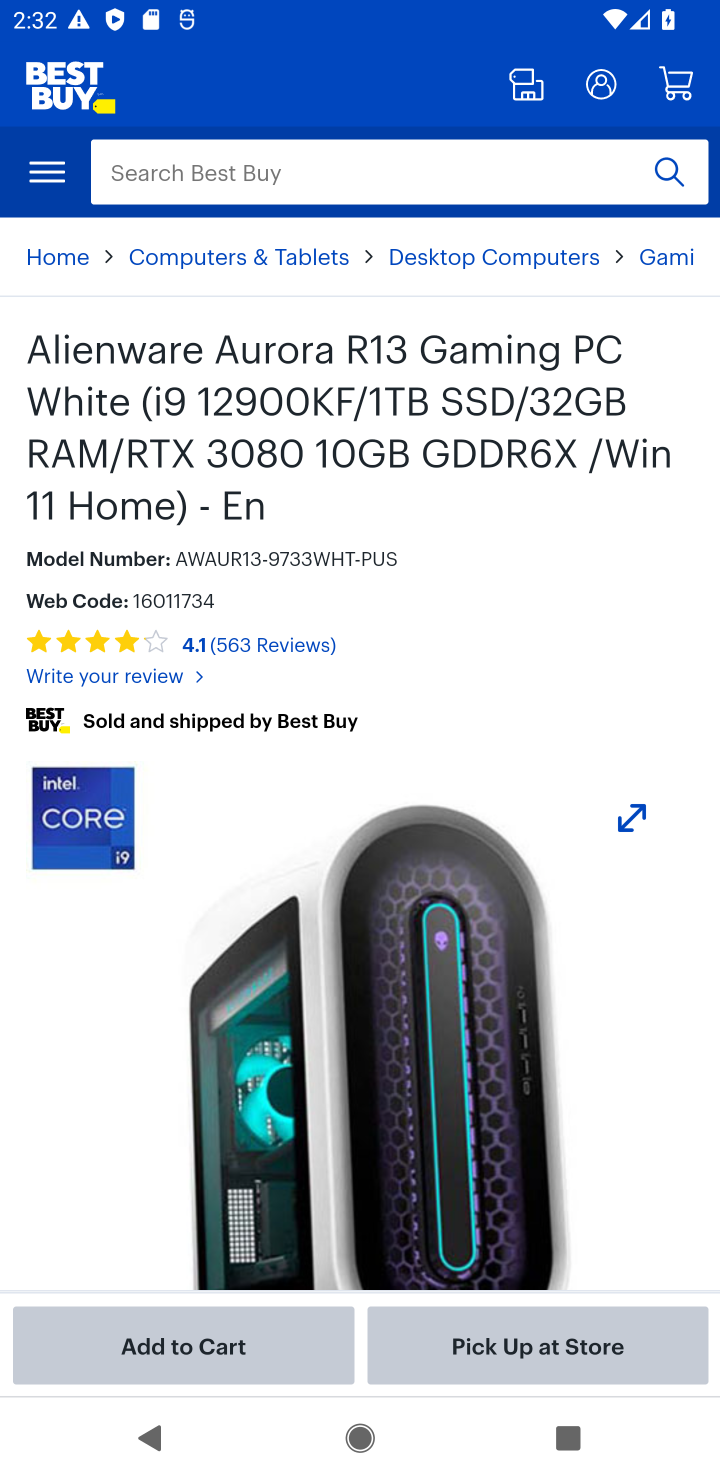
Step 28: click (167, 1355)
Your task to perform on an android device: Show the shopping cart on bestbuy. Add alienware aurora to the cart on bestbuy, then select checkout. Image 29: 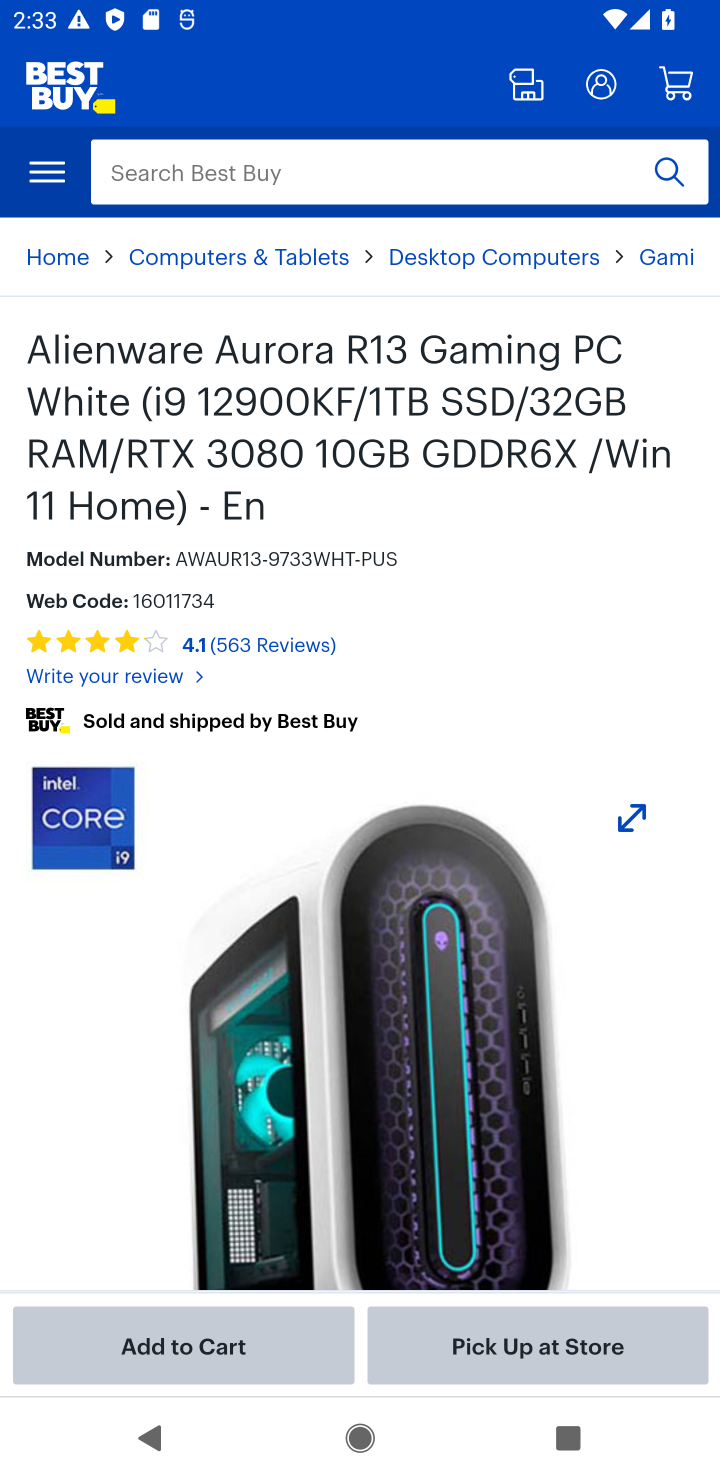
Step 29: click (204, 1350)
Your task to perform on an android device: Show the shopping cart on bestbuy. Add alienware aurora to the cart on bestbuy, then select checkout. Image 30: 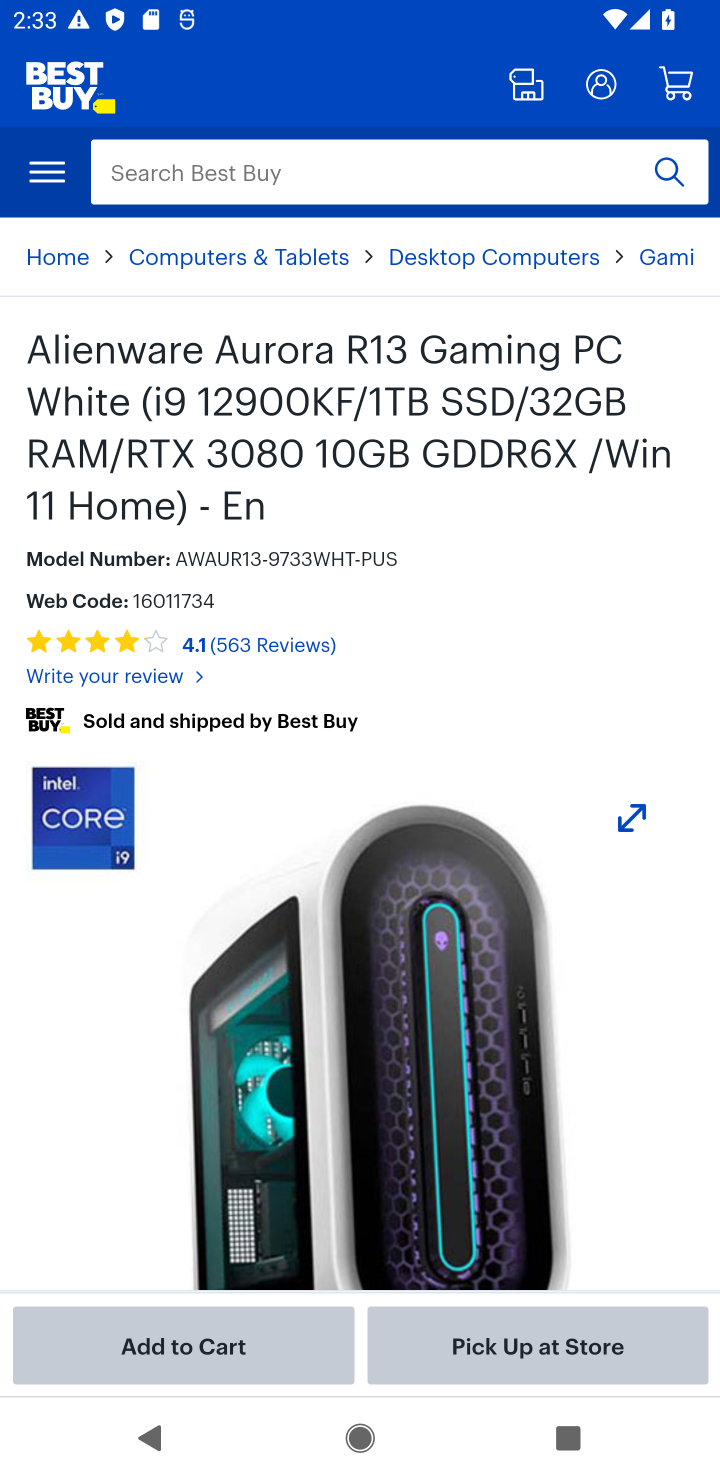
Step 30: drag from (614, 939) to (718, 255)
Your task to perform on an android device: Show the shopping cart on bestbuy. Add alienware aurora to the cart on bestbuy, then select checkout. Image 31: 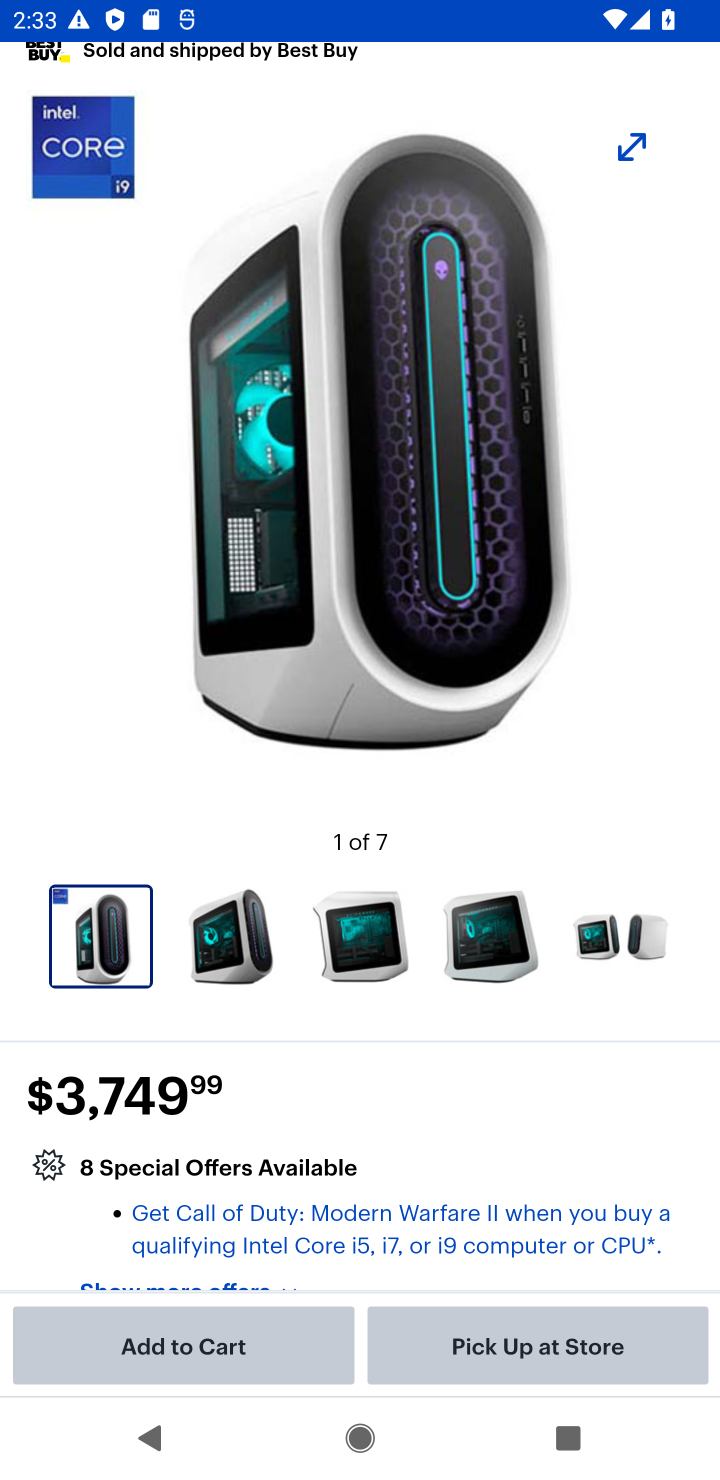
Step 31: click (151, 1335)
Your task to perform on an android device: Show the shopping cart on bestbuy. Add alienware aurora to the cart on bestbuy, then select checkout. Image 32: 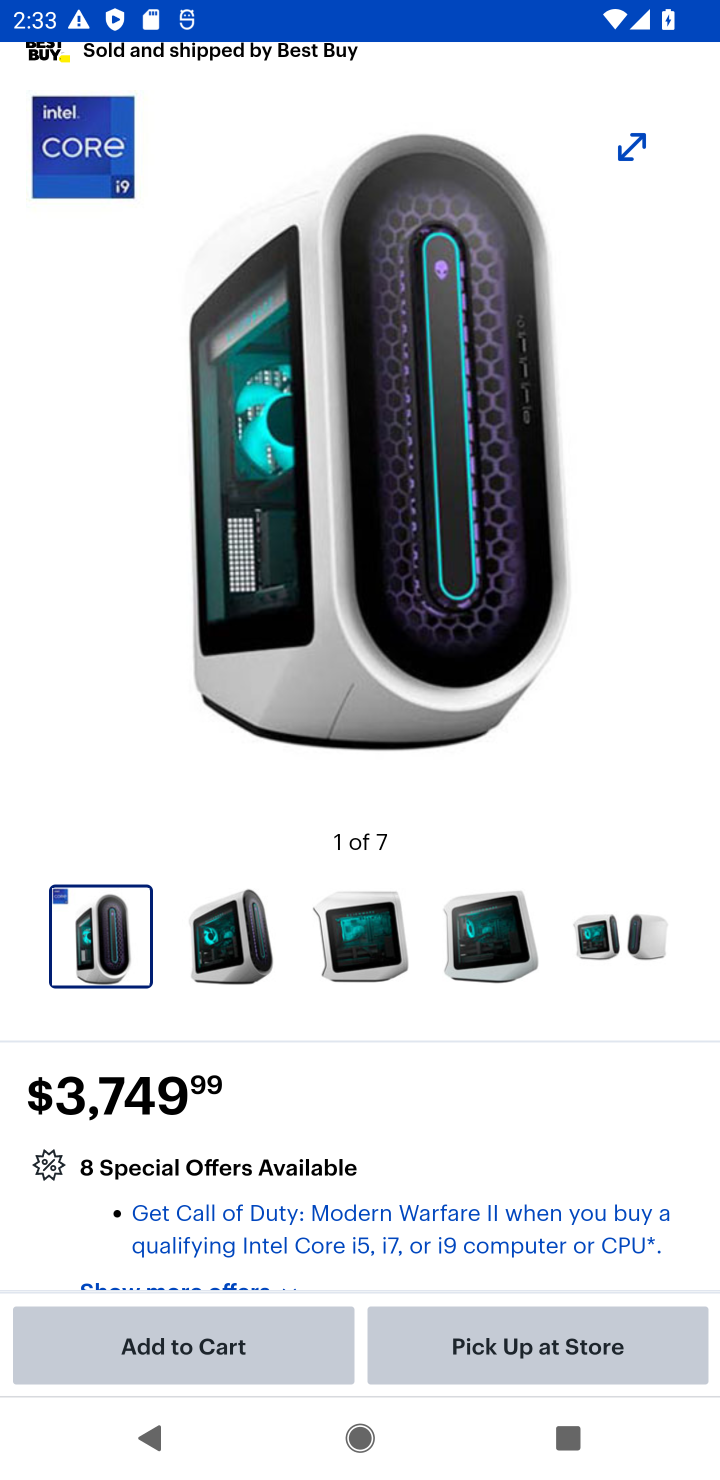
Step 32: click (156, 1348)
Your task to perform on an android device: Show the shopping cart on bestbuy. Add alienware aurora to the cart on bestbuy, then select checkout. Image 33: 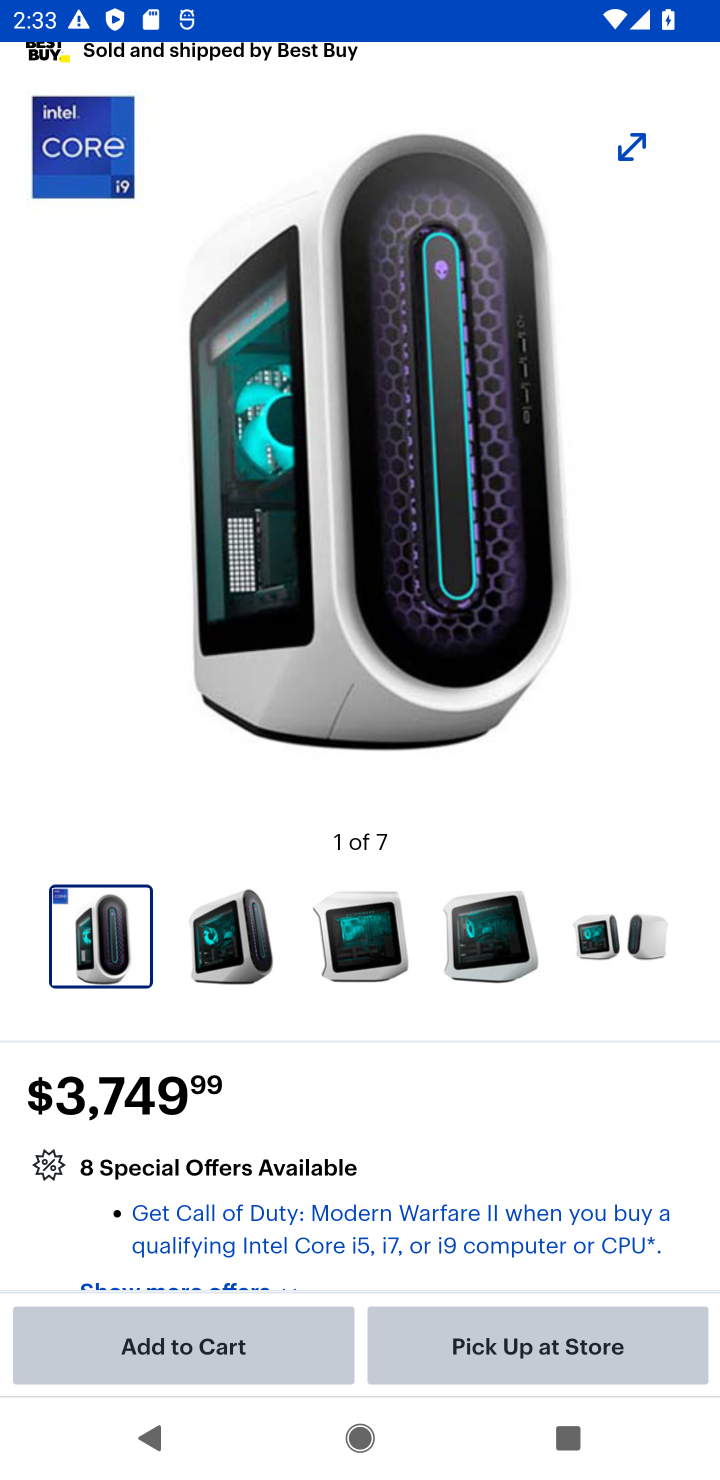
Step 33: task complete